Your task to perform on an android device: Search for usb-b on walmart.com, select the first entry, add it to the cart, then select checkout. Image 0: 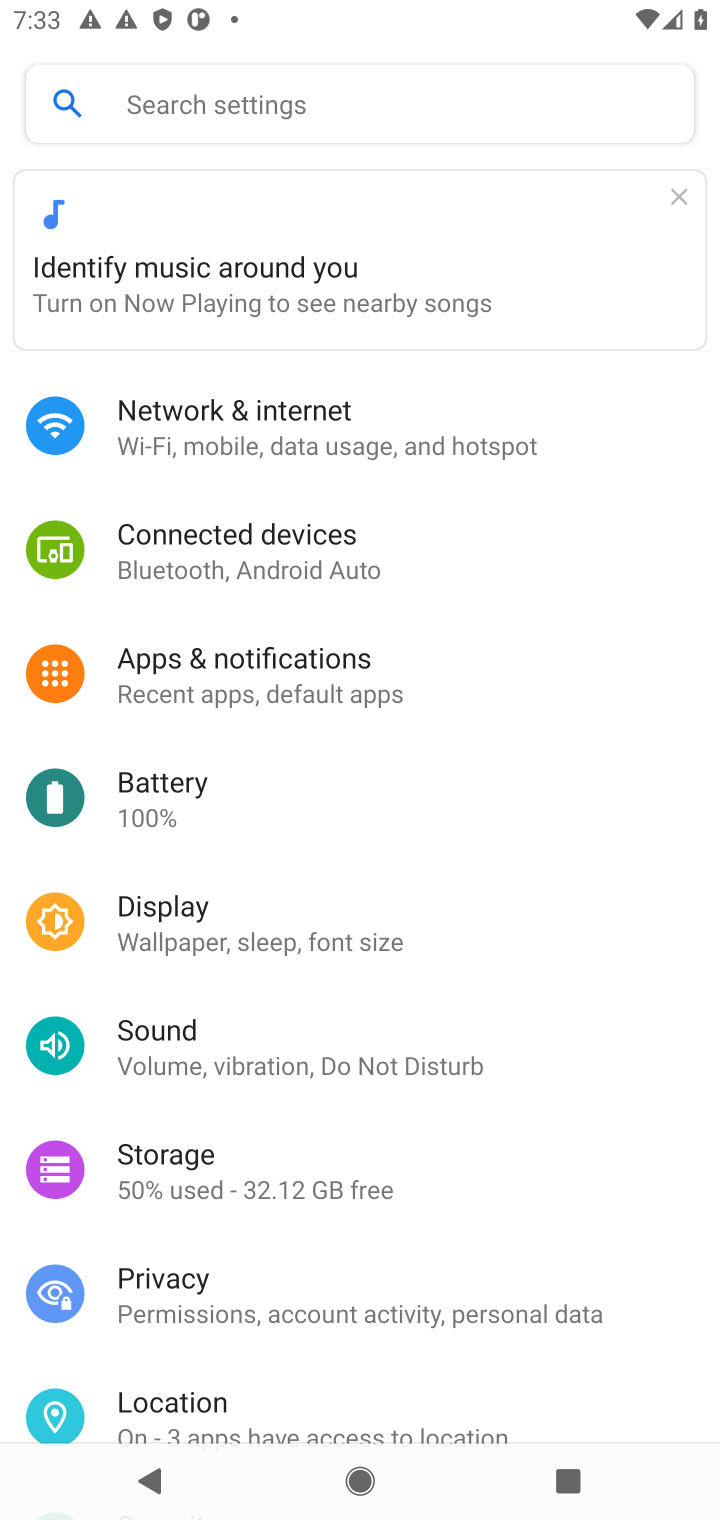
Step 0: press home button
Your task to perform on an android device: Search for usb-b on walmart.com, select the first entry, add it to the cart, then select checkout. Image 1: 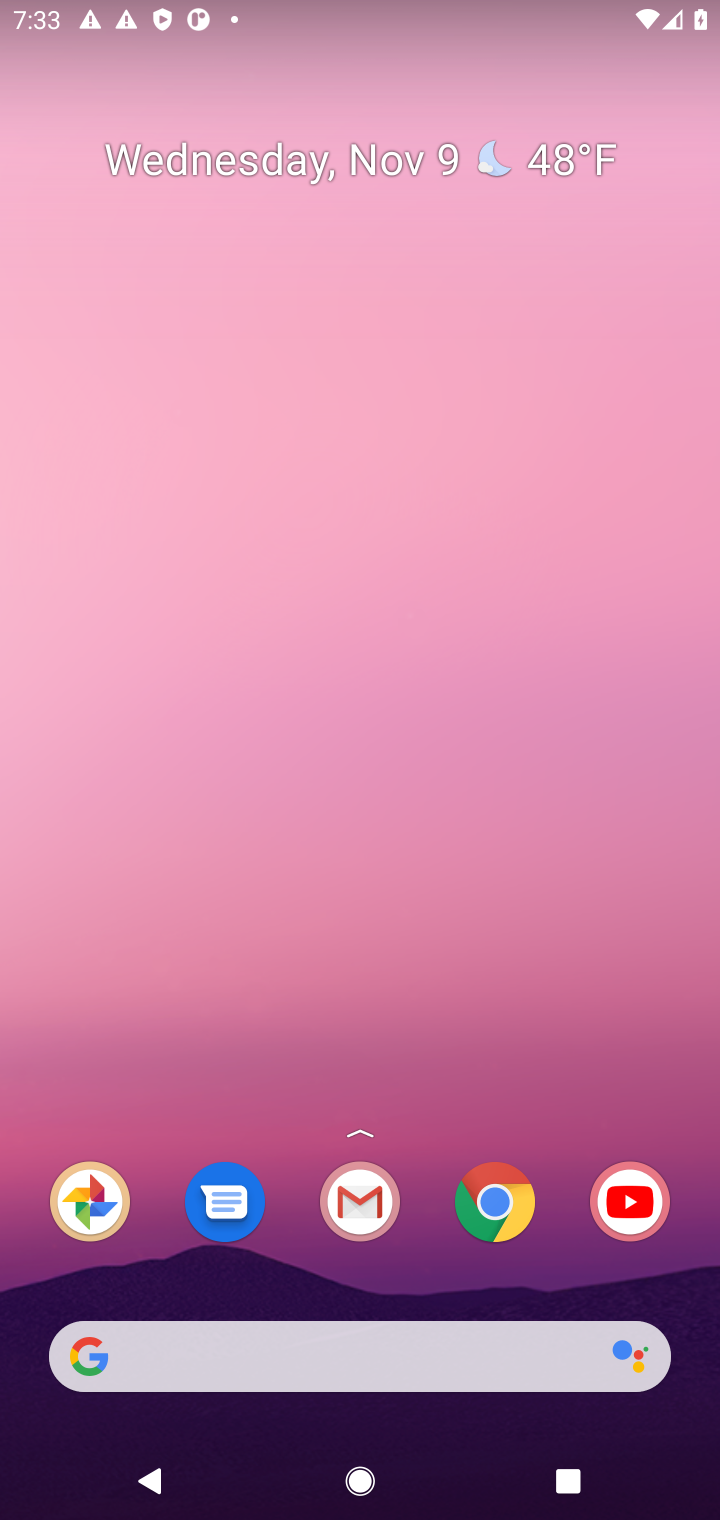
Step 1: click (507, 1204)
Your task to perform on an android device: Search for usb-b on walmart.com, select the first entry, add it to the cart, then select checkout. Image 2: 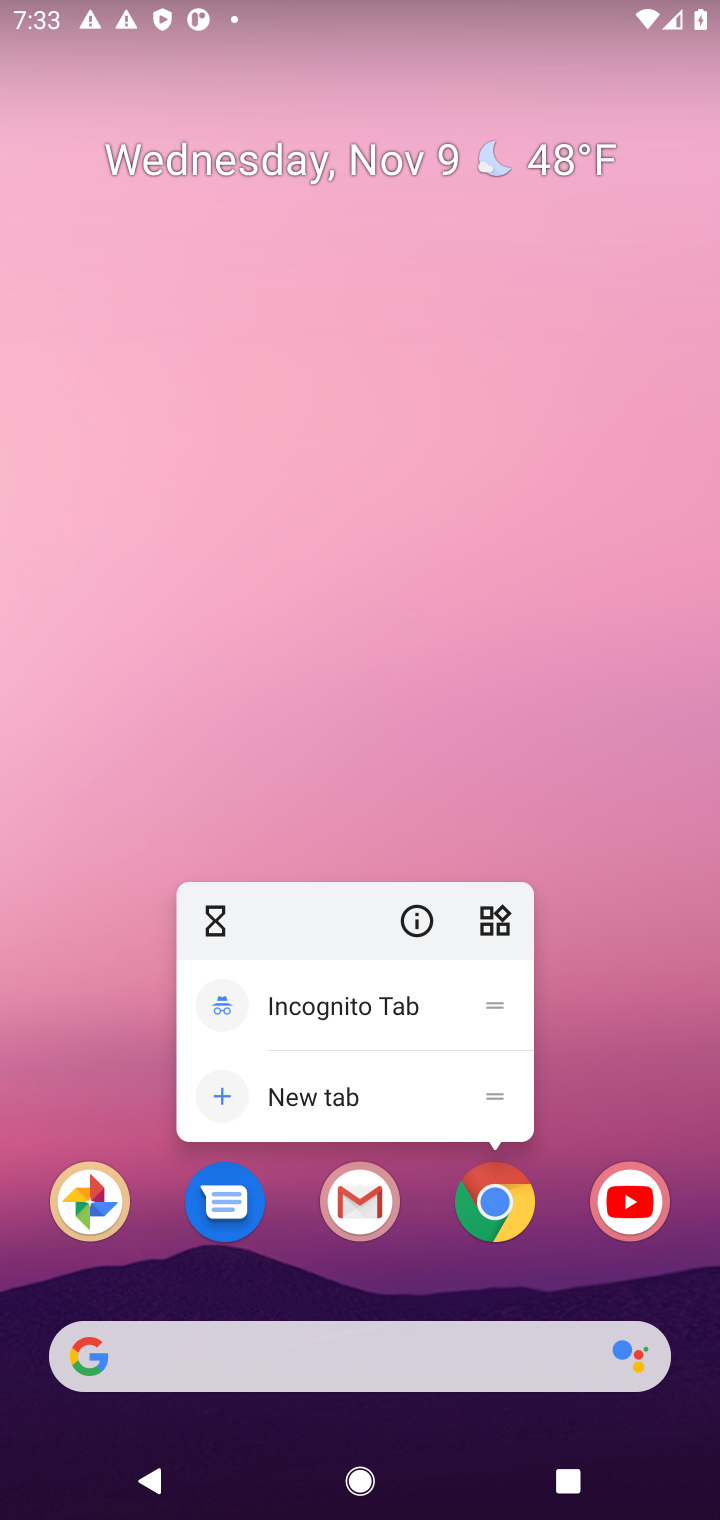
Step 2: click (482, 1208)
Your task to perform on an android device: Search for usb-b on walmart.com, select the first entry, add it to the cart, then select checkout. Image 3: 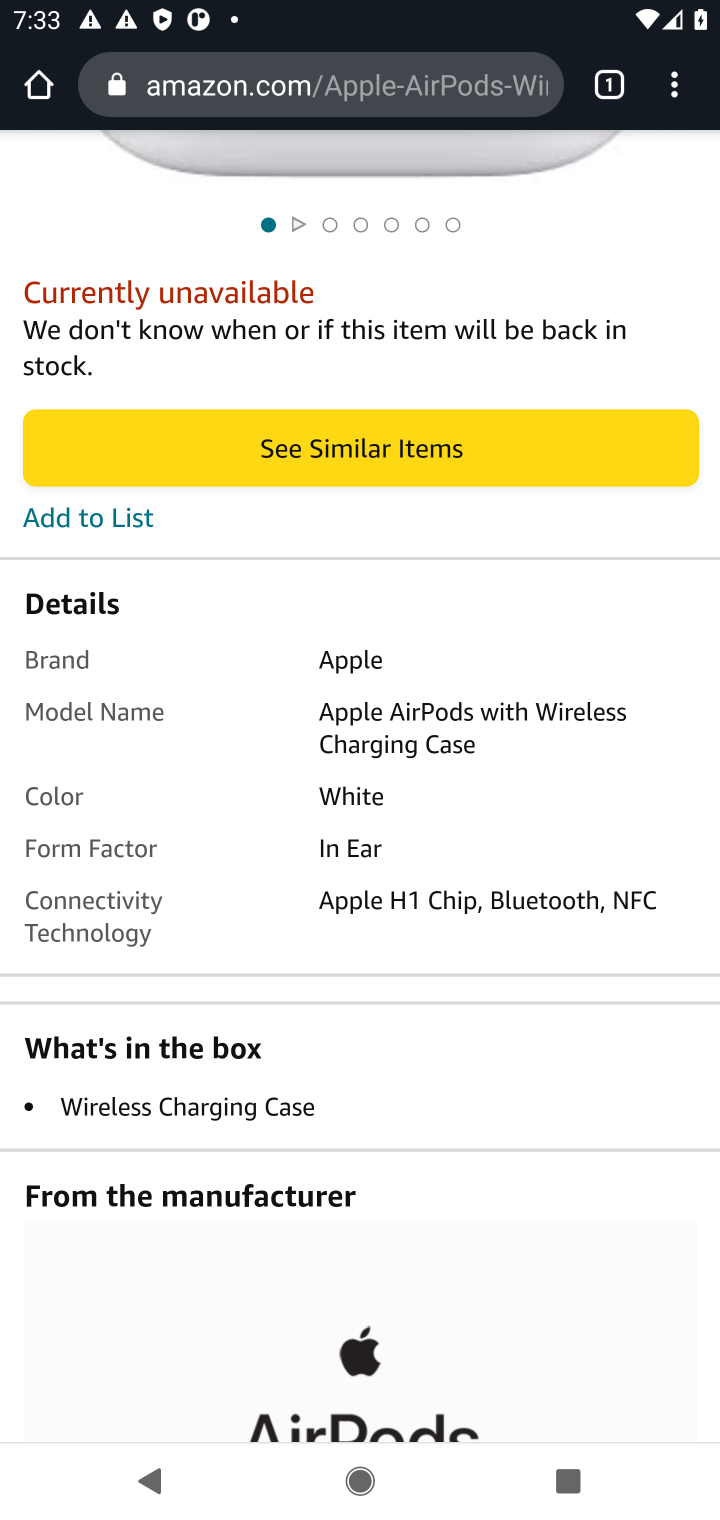
Step 3: click (379, 81)
Your task to perform on an android device: Search for usb-b on walmart.com, select the first entry, add it to the cart, then select checkout. Image 4: 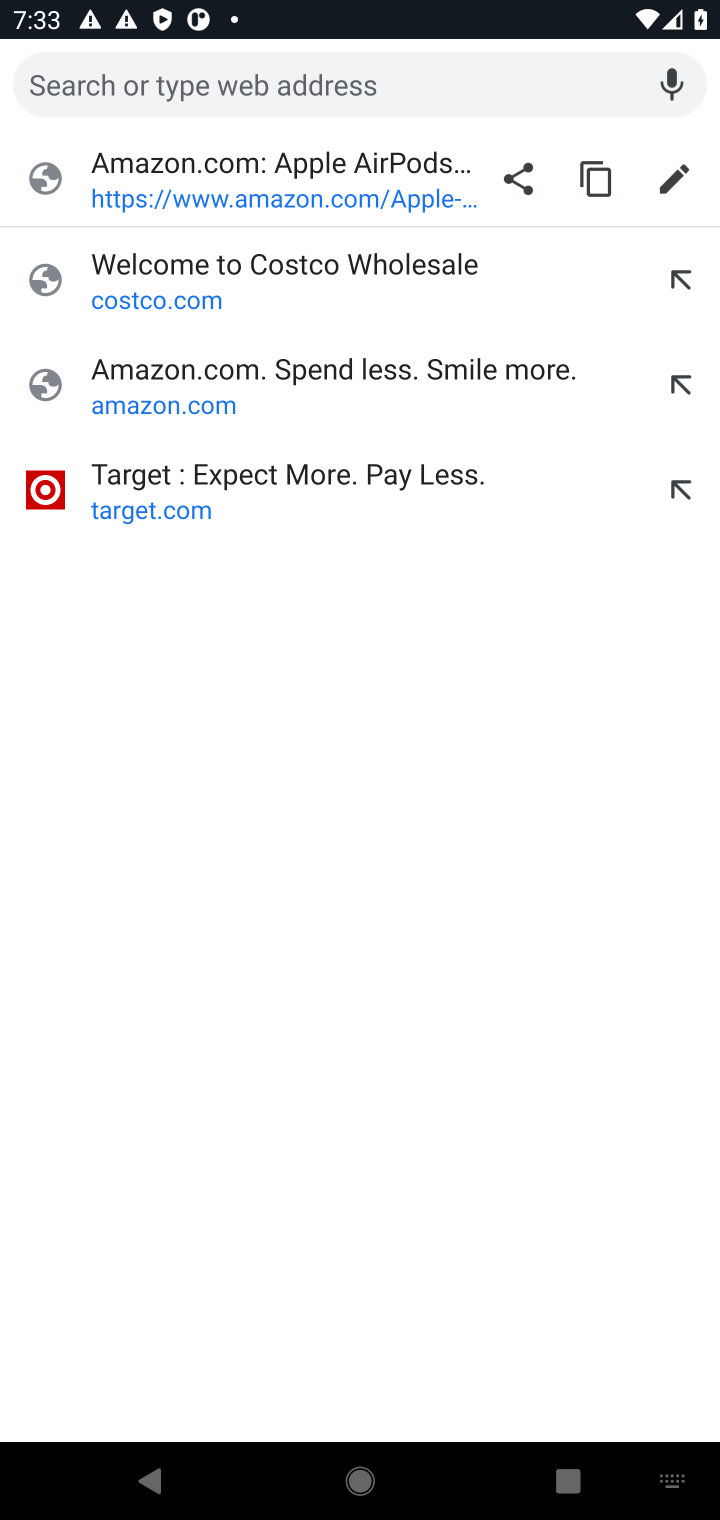
Step 4: type "walmart.com"
Your task to perform on an android device: Search for usb-b on walmart.com, select the first entry, add it to the cart, then select checkout. Image 5: 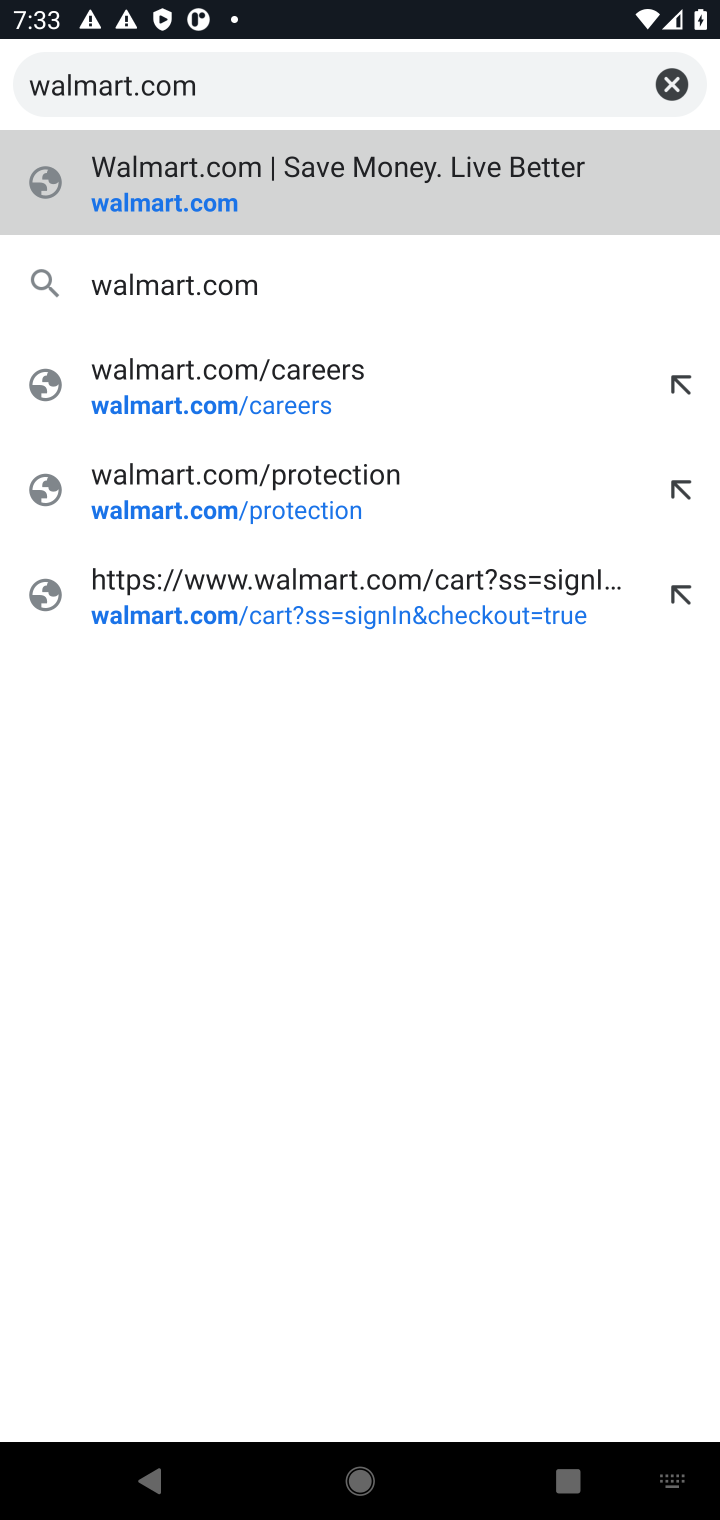
Step 5: press enter
Your task to perform on an android device: Search for usb-b on walmart.com, select the first entry, add it to the cart, then select checkout. Image 6: 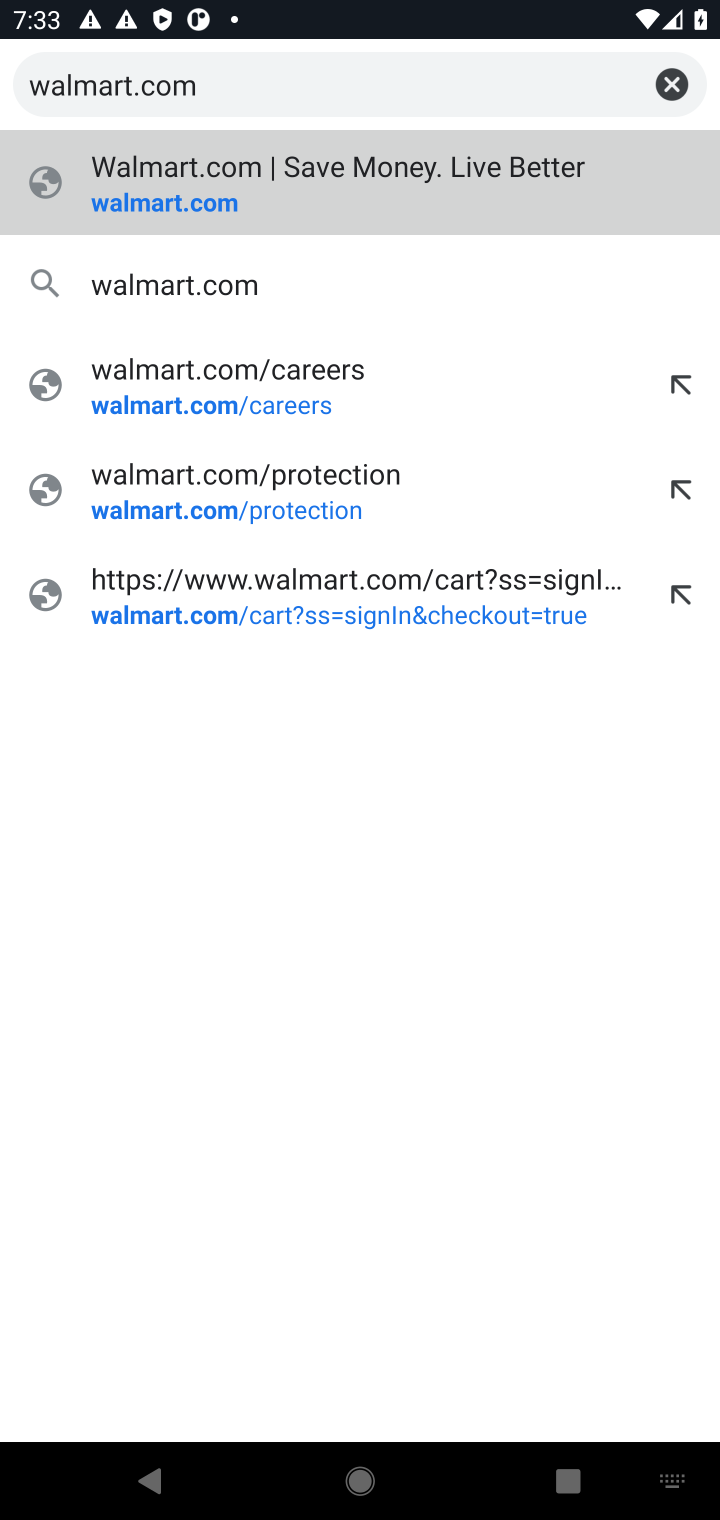
Step 6: click (52, 74)
Your task to perform on an android device: Search for usb-b on walmart.com, select the first entry, add it to the cart, then select checkout. Image 7: 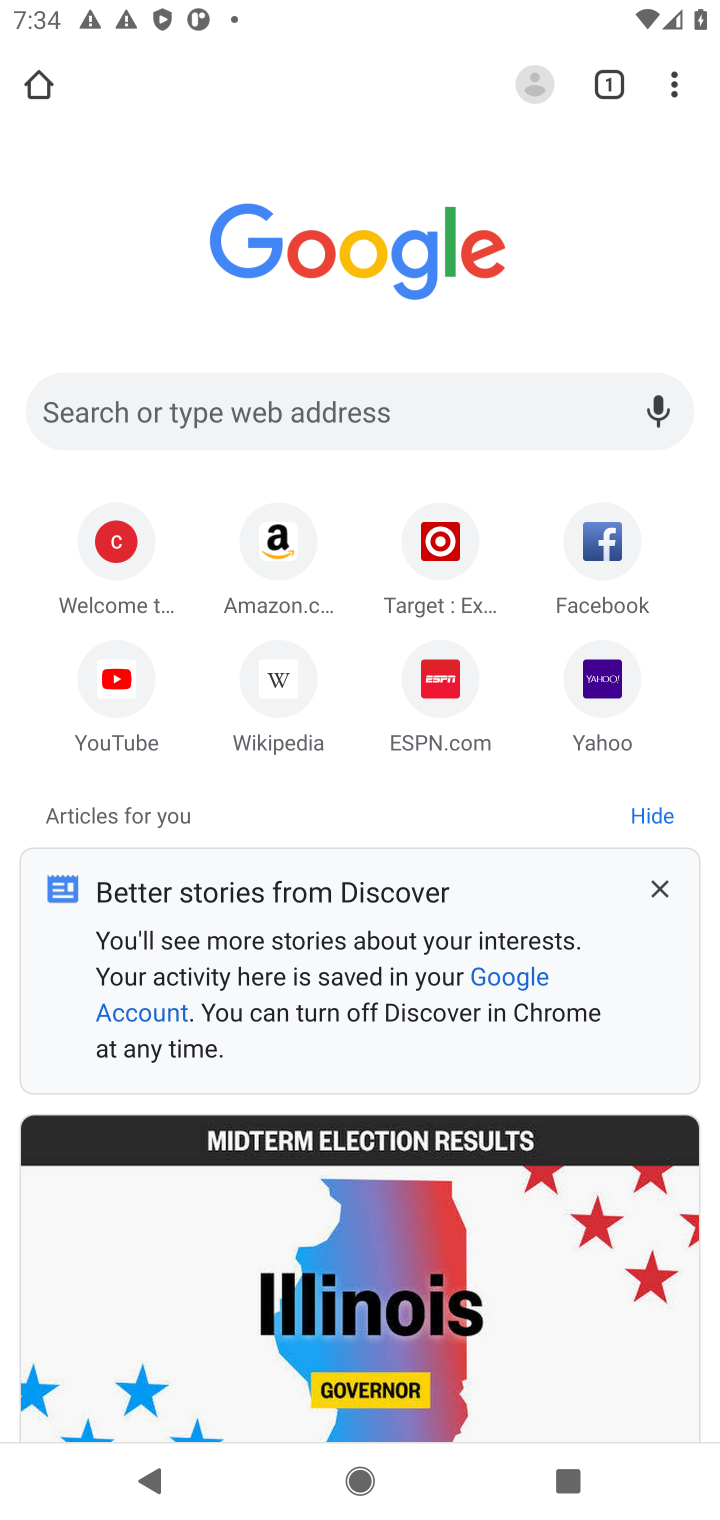
Step 7: click (191, 394)
Your task to perform on an android device: Search for usb-b on walmart.com, select the first entry, add it to the cart, then select checkout. Image 8: 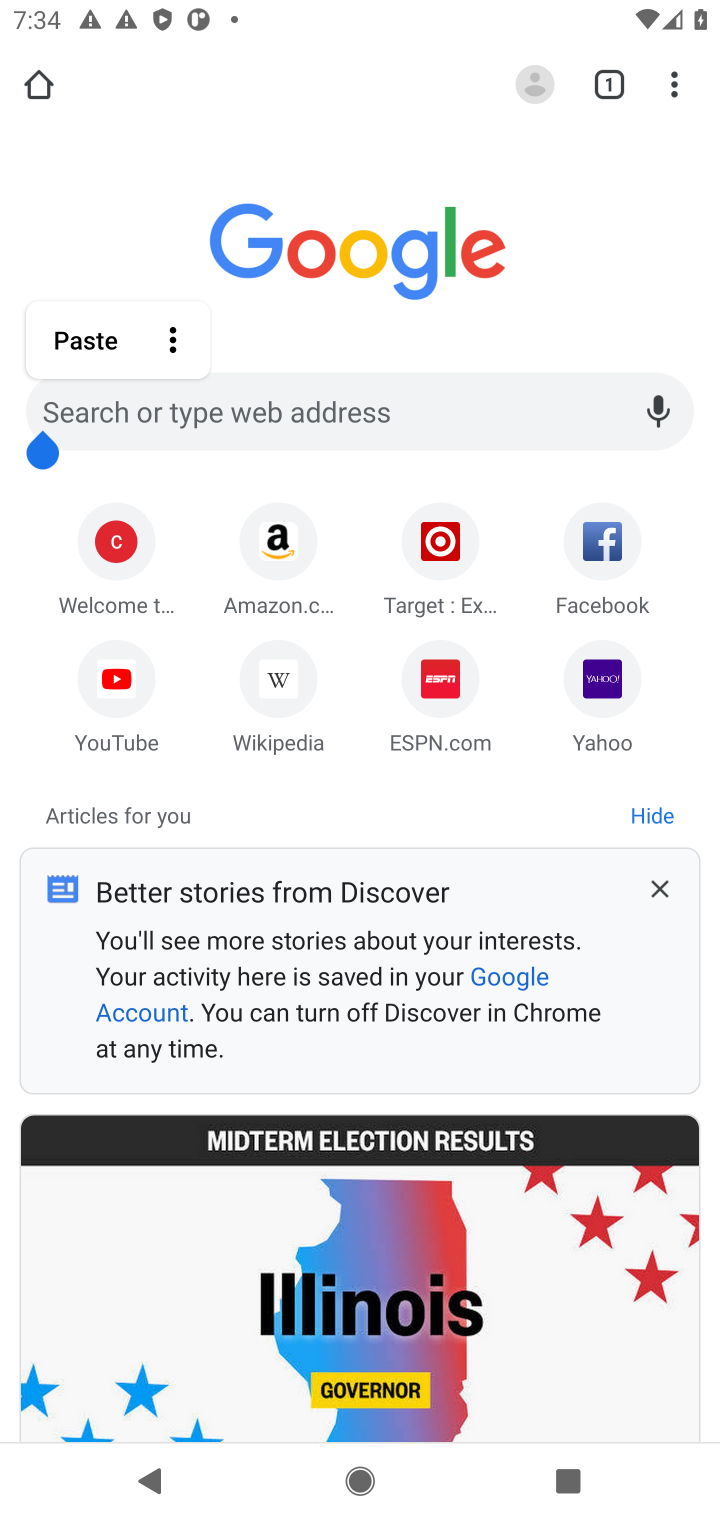
Step 8: click (166, 405)
Your task to perform on an android device: Search for usb-b on walmart.com, select the first entry, add it to the cart, then select checkout. Image 9: 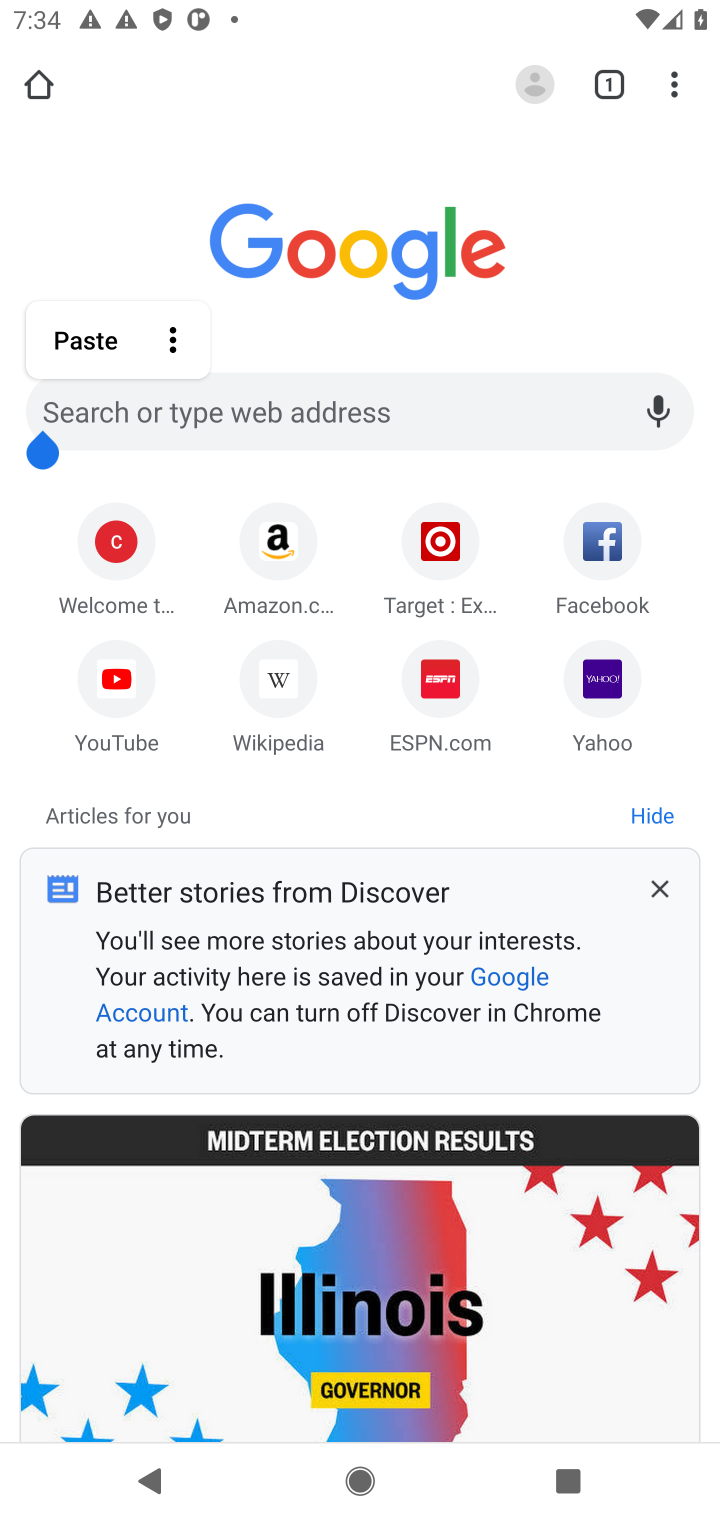
Step 9: click (168, 402)
Your task to perform on an android device: Search for usb-b on walmart.com, select the first entry, add it to the cart, then select checkout. Image 10: 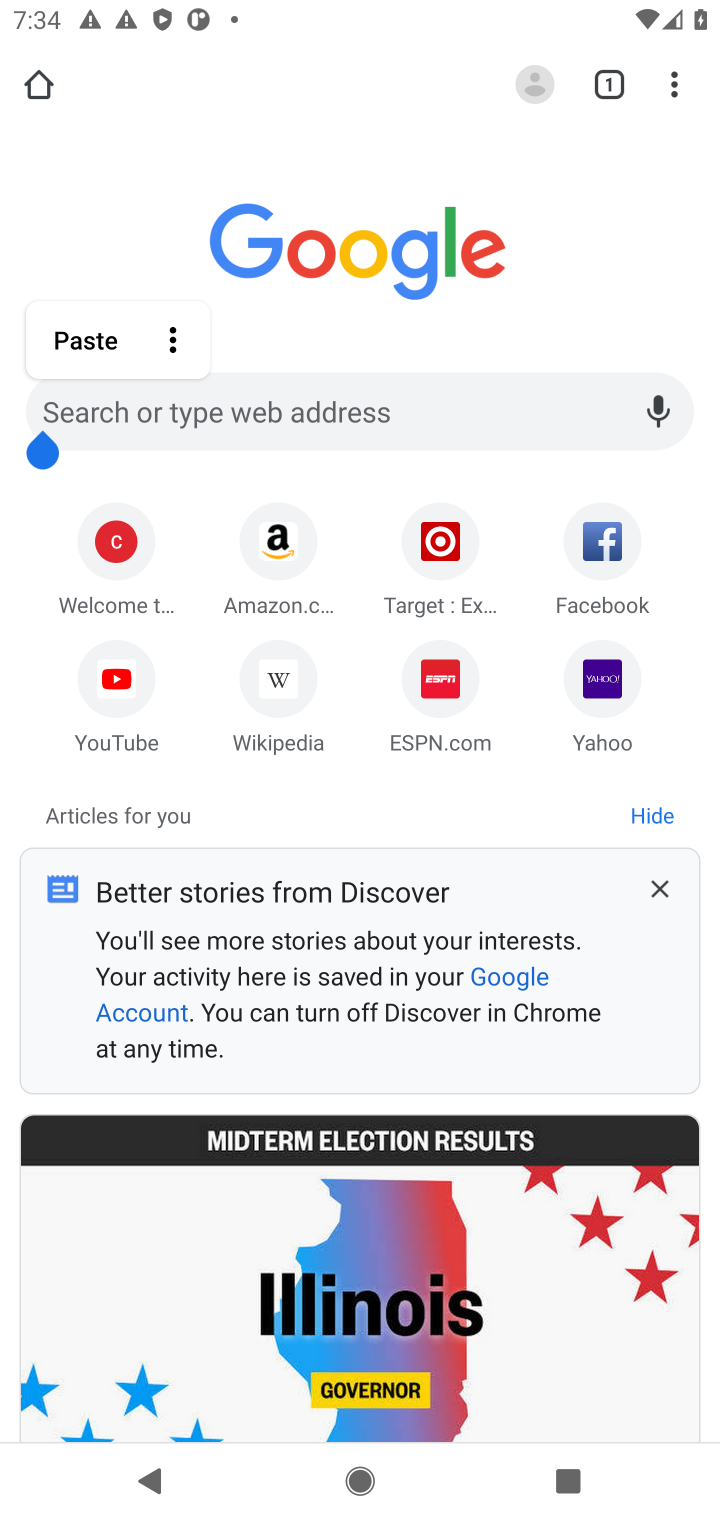
Step 10: click (97, 402)
Your task to perform on an android device: Search for usb-b on walmart.com, select the first entry, add it to the cart, then select checkout. Image 11: 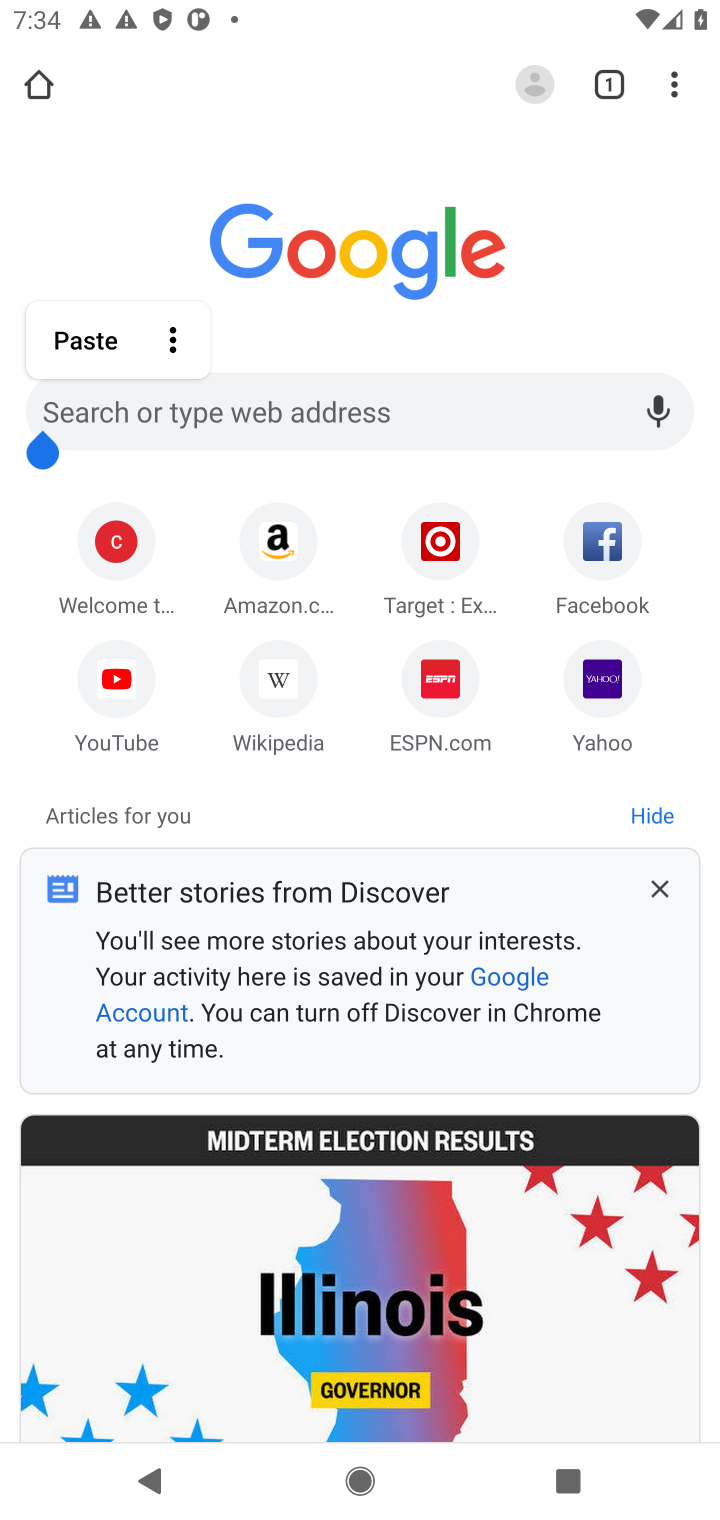
Step 11: click (101, 402)
Your task to perform on an android device: Search for usb-b on walmart.com, select the first entry, add it to the cart, then select checkout. Image 12: 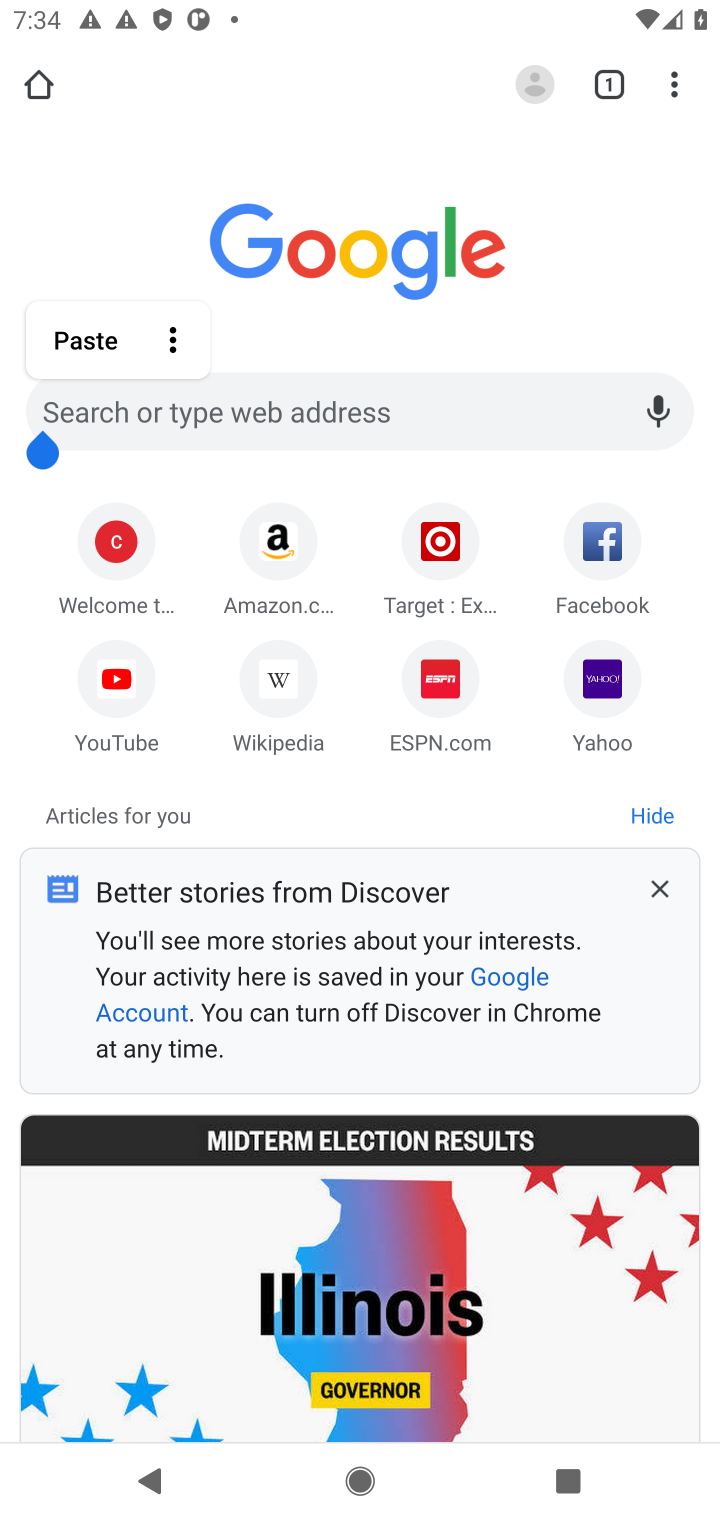
Step 12: click (230, 409)
Your task to perform on an android device: Search for usb-b on walmart.com, select the first entry, add it to the cart, then select checkout. Image 13: 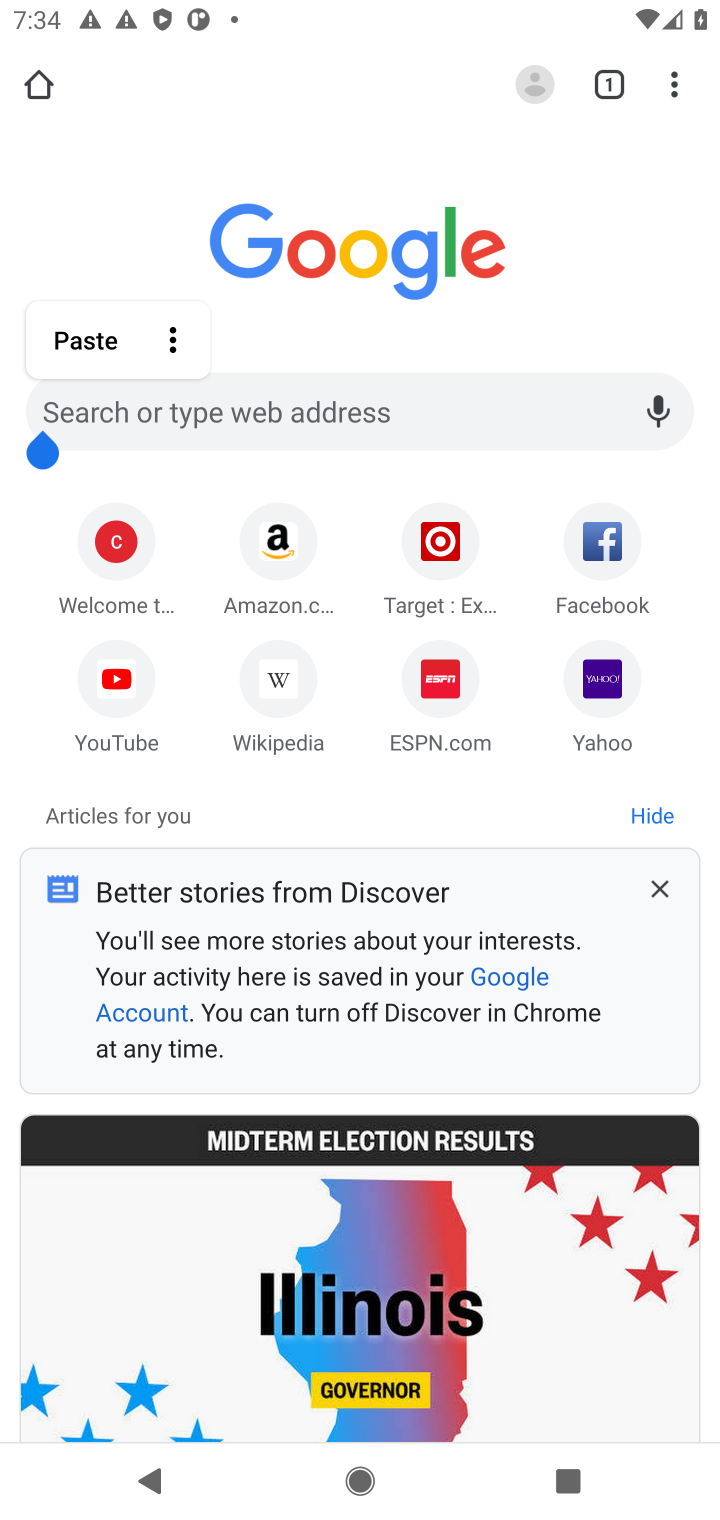
Step 13: click (284, 410)
Your task to perform on an android device: Search for usb-b on walmart.com, select the first entry, add it to the cart, then select checkout. Image 14: 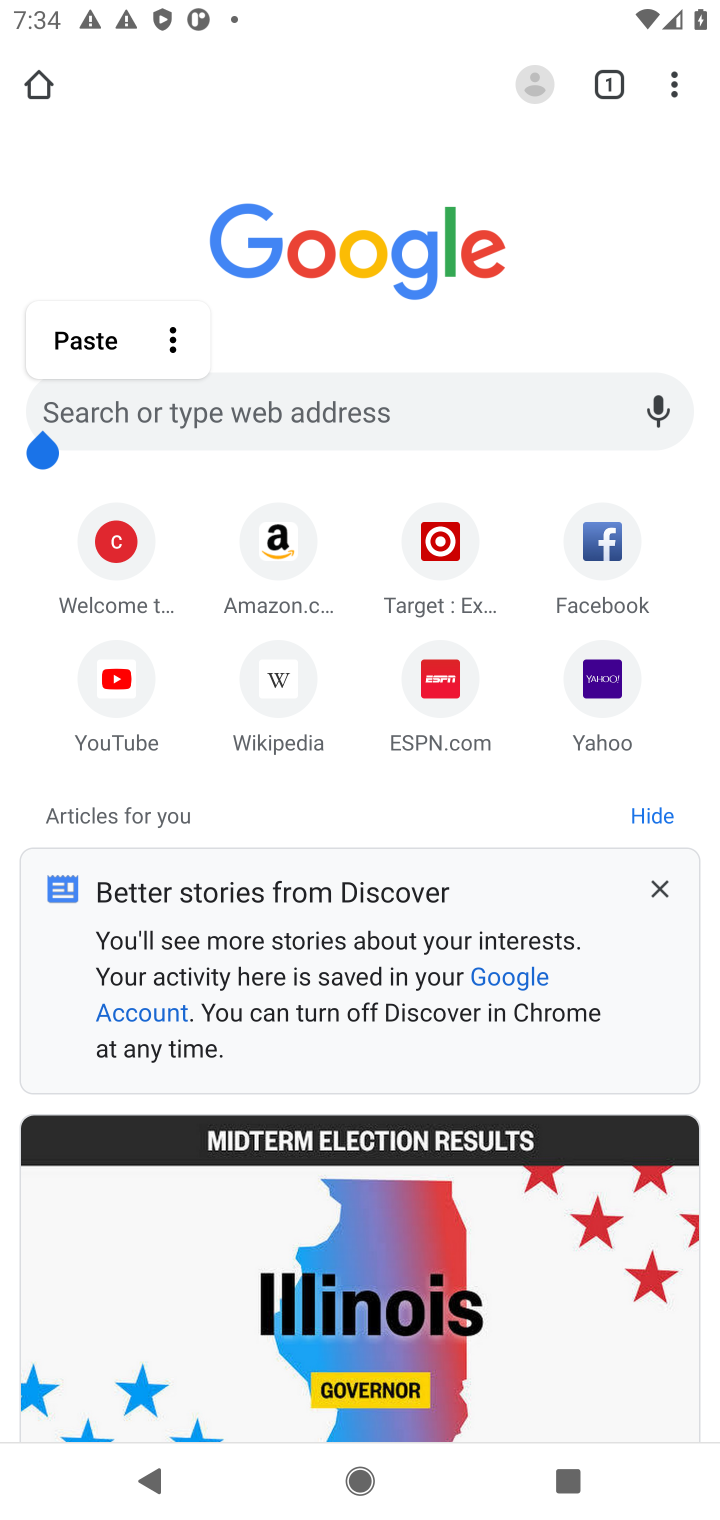
Step 14: click (131, 398)
Your task to perform on an android device: Search for usb-b on walmart.com, select the first entry, add it to the cart, then select checkout. Image 15: 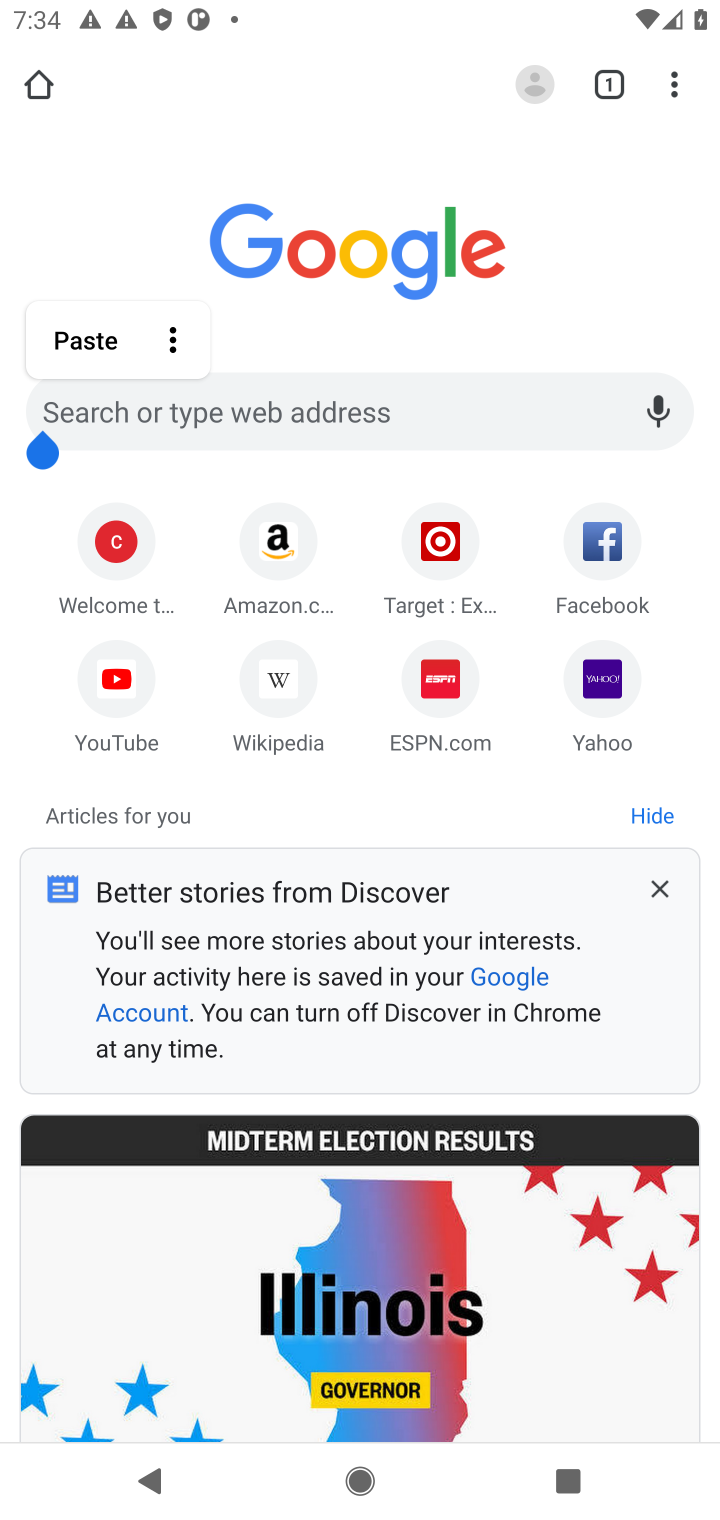
Step 15: click (66, 400)
Your task to perform on an android device: Search for usb-b on walmart.com, select the first entry, add it to the cart, then select checkout. Image 16: 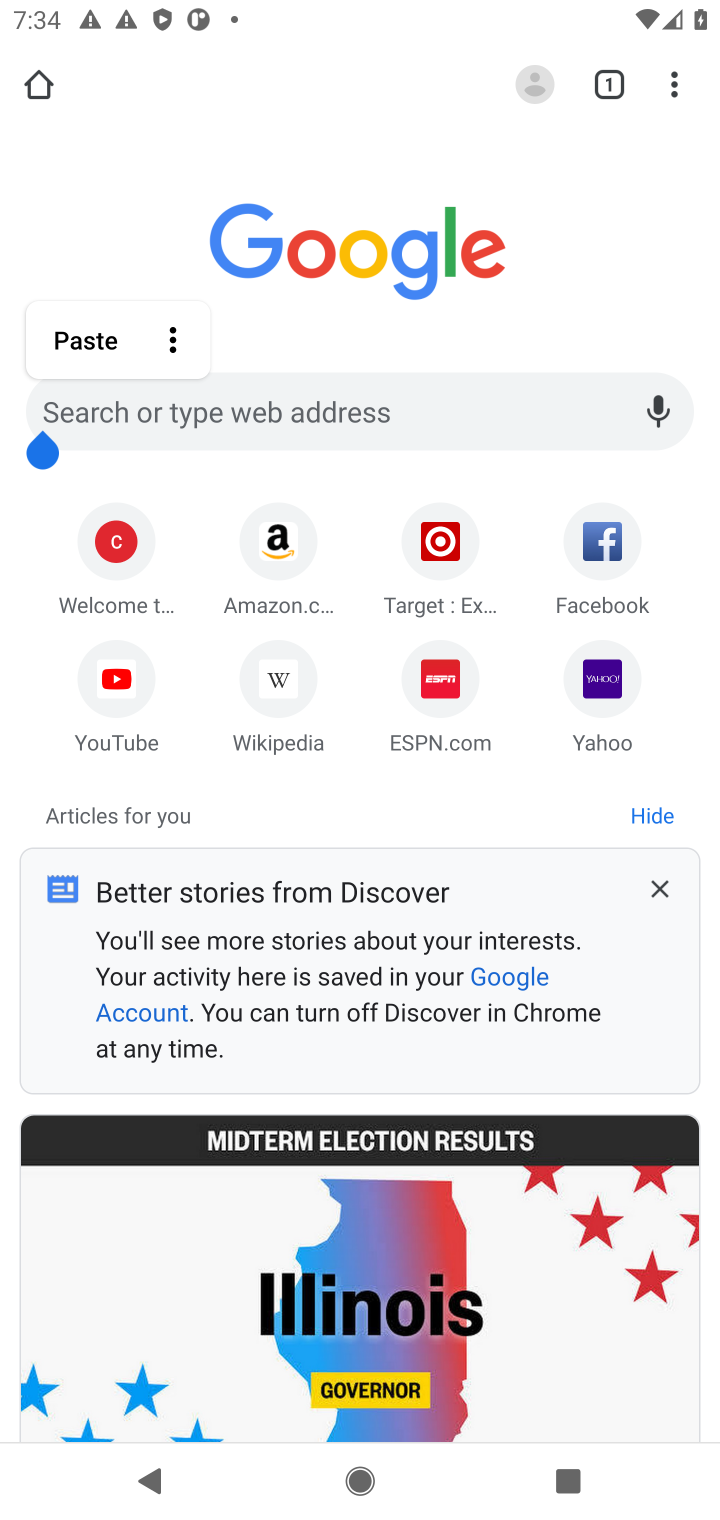
Step 16: click (164, 402)
Your task to perform on an android device: Search for usb-b on walmart.com, select the first entry, add it to the cart, then select checkout. Image 17: 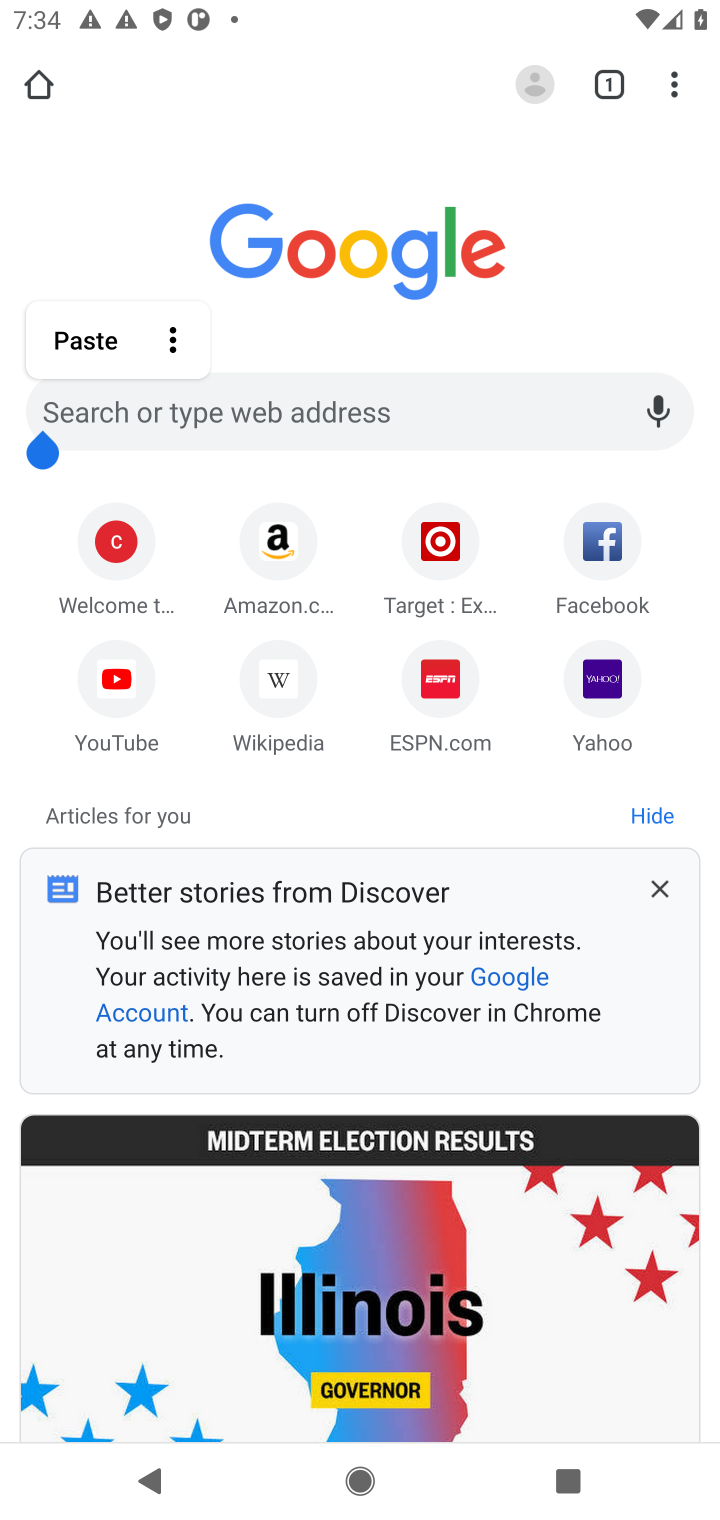
Step 17: click (451, 404)
Your task to perform on an android device: Search for usb-b on walmart.com, select the first entry, add it to the cart, then select checkout. Image 18: 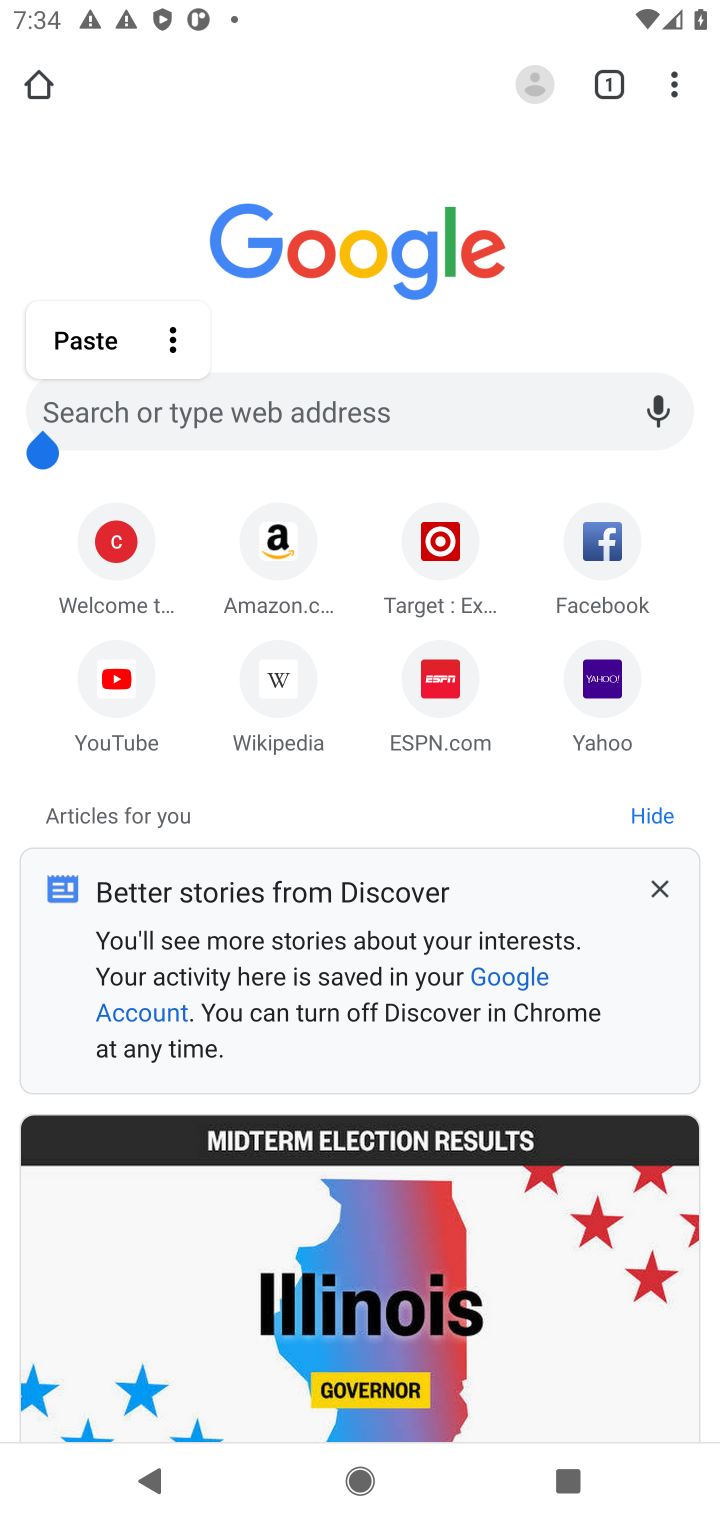
Step 18: press home button
Your task to perform on an android device: Search for usb-b on walmart.com, select the first entry, add it to the cart, then select checkout. Image 19: 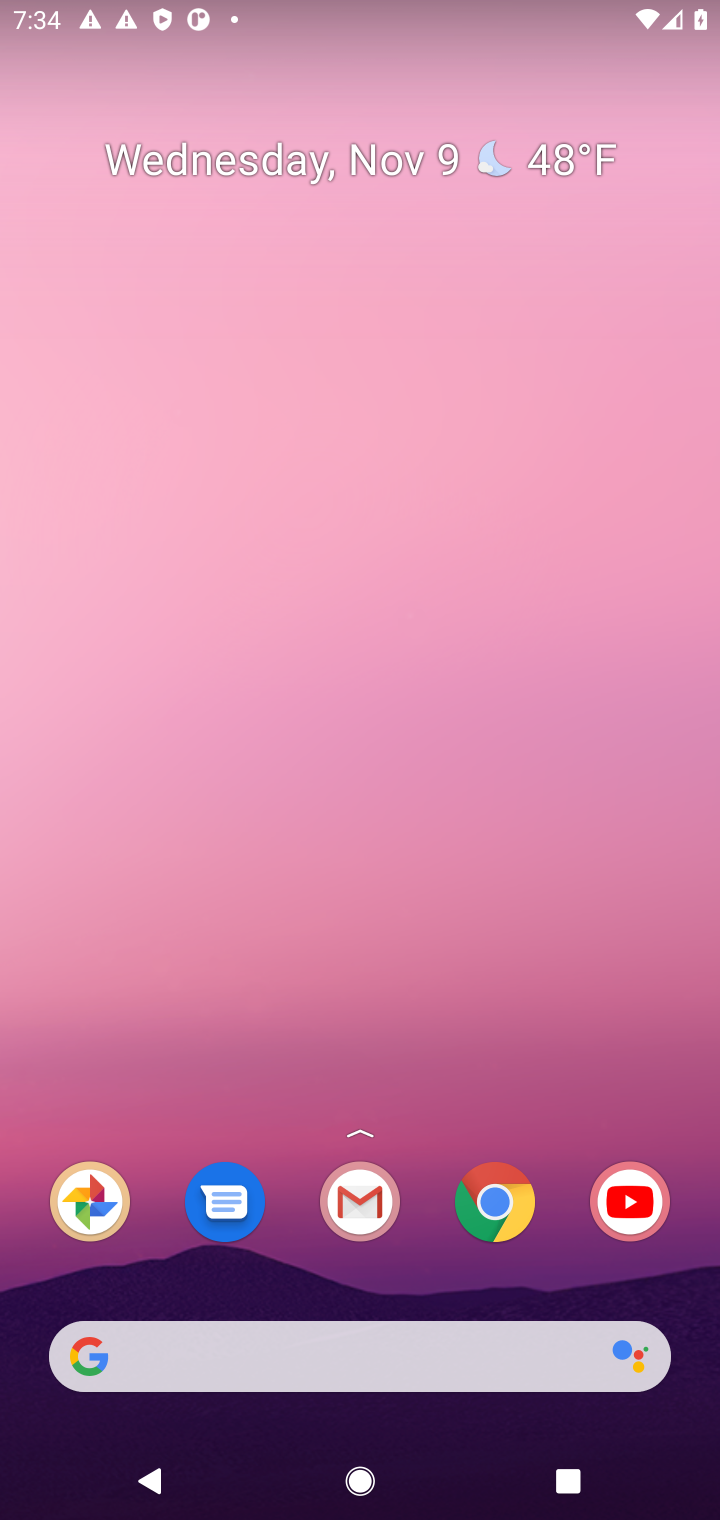
Step 19: click (232, 1350)
Your task to perform on an android device: Search for usb-b on walmart.com, select the first entry, add it to the cart, then select checkout. Image 20: 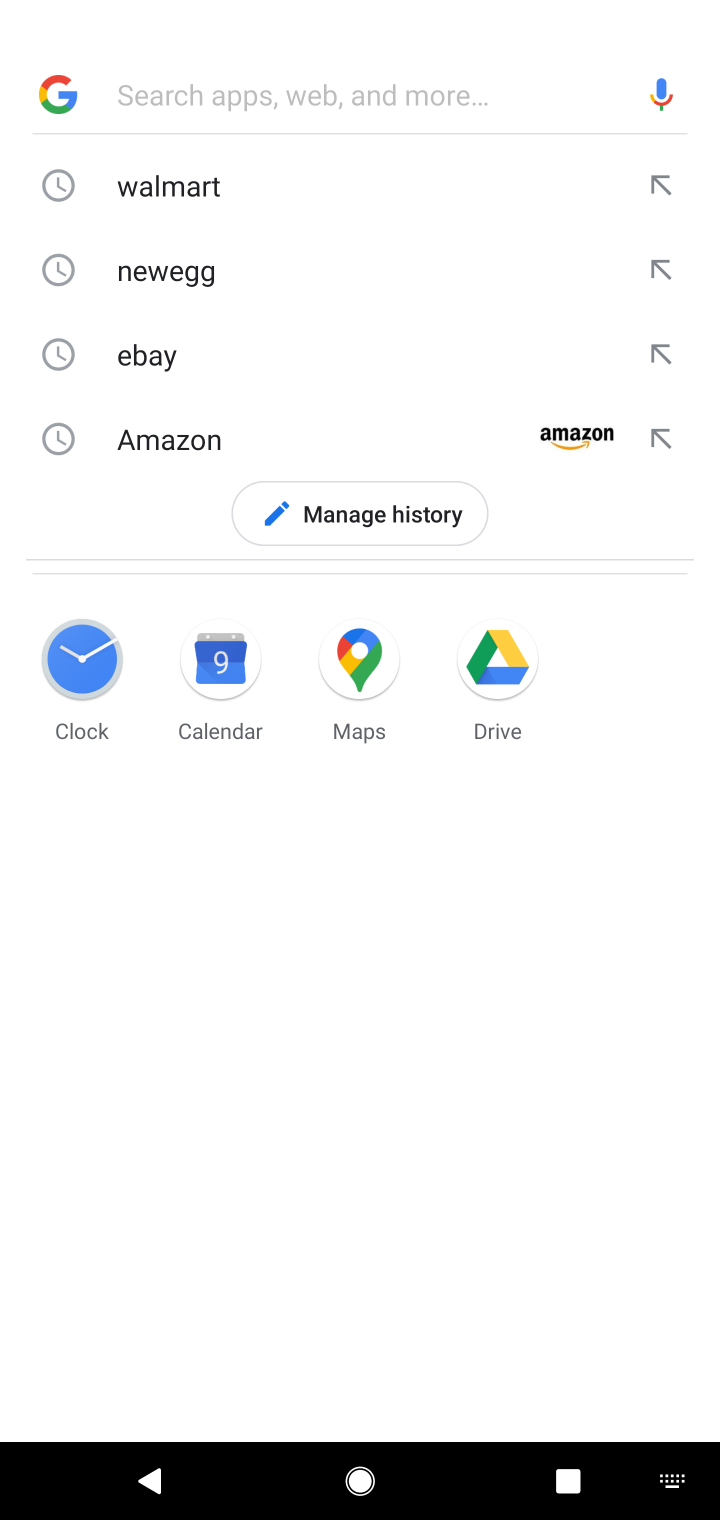
Step 20: type "walmart.com"
Your task to perform on an android device: Search for usb-b on walmart.com, select the first entry, add it to the cart, then select checkout. Image 21: 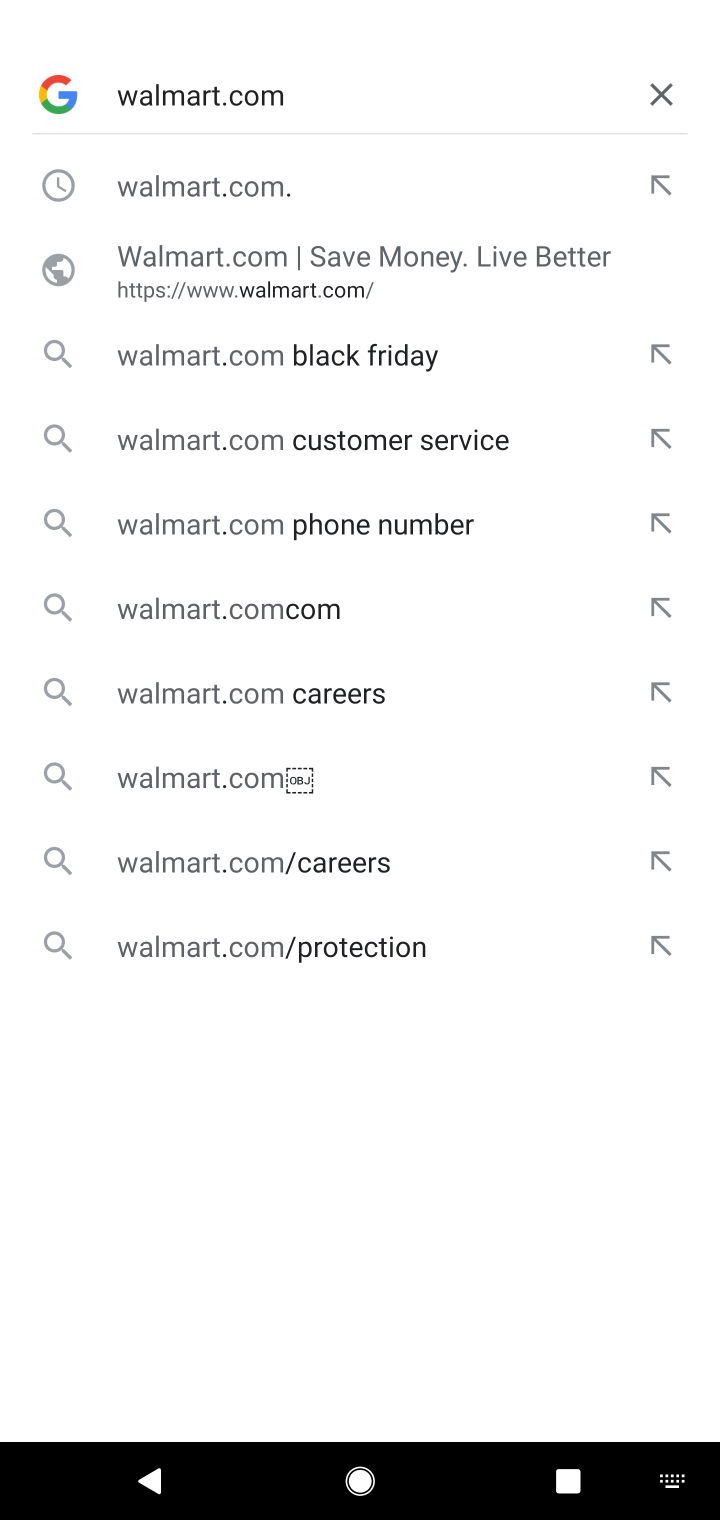
Step 21: press enter
Your task to perform on an android device: Search for usb-b on walmart.com, select the first entry, add it to the cart, then select checkout. Image 22: 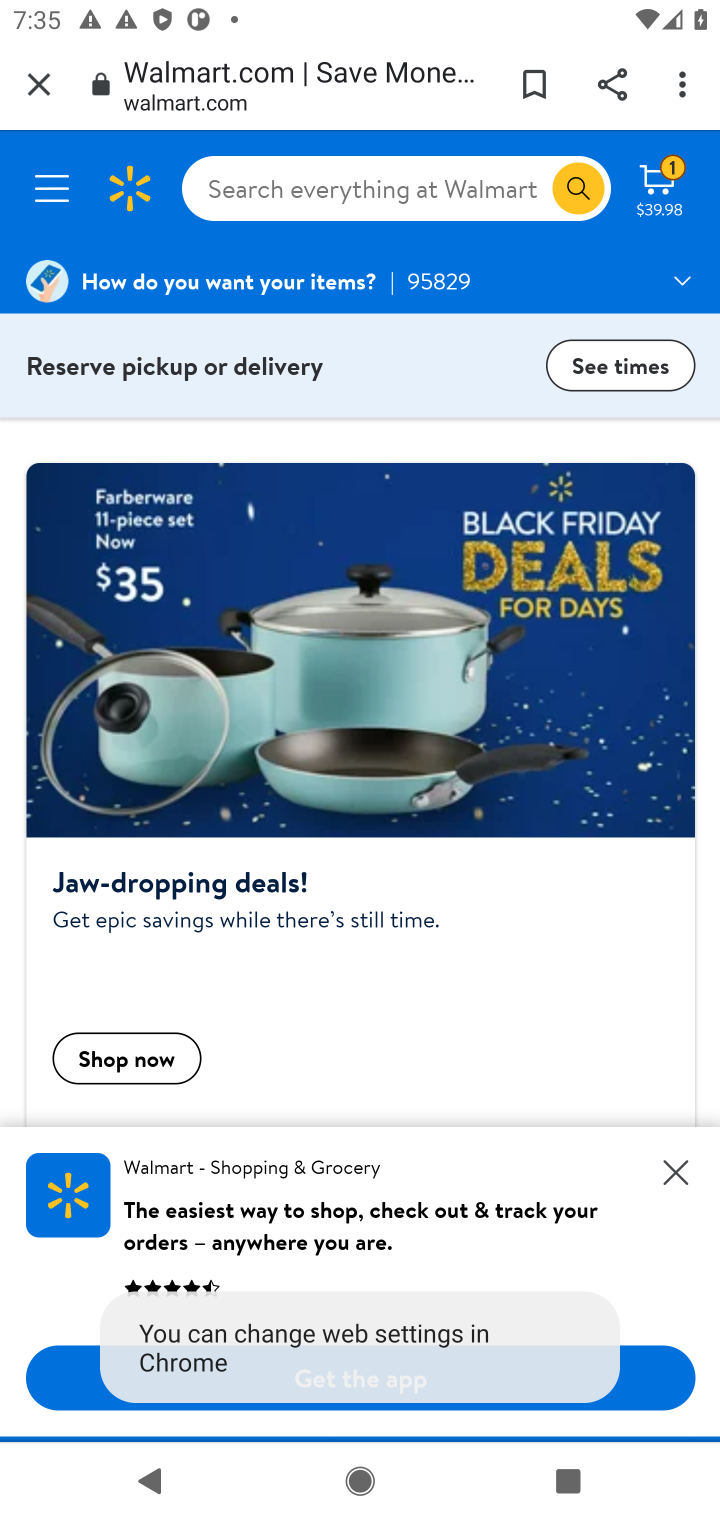
Step 22: click (358, 203)
Your task to perform on an android device: Search for usb-b on walmart.com, select the first entry, add it to the cart, then select checkout. Image 23: 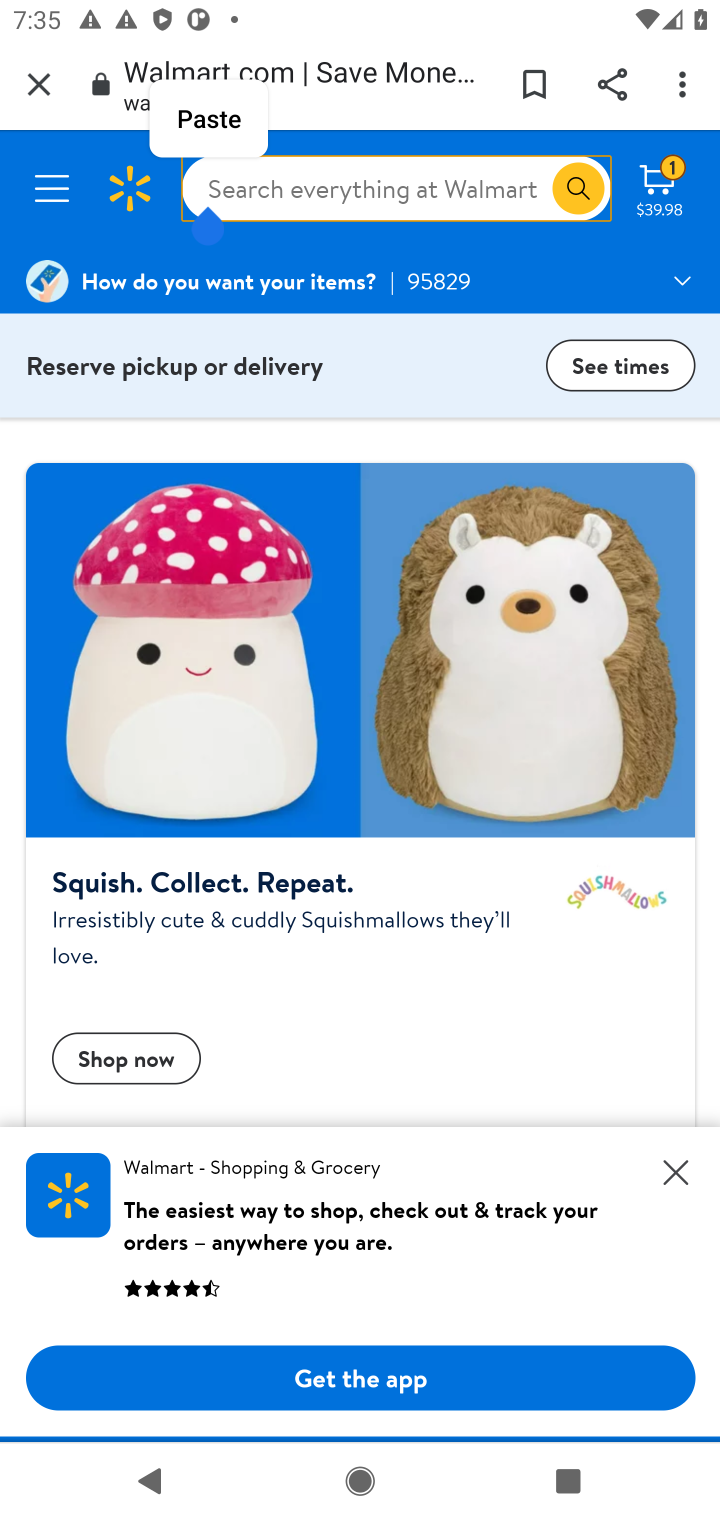
Step 23: type "usb-b "
Your task to perform on an android device: Search for usb-b on walmart.com, select the first entry, add it to the cart, then select checkout. Image 24: 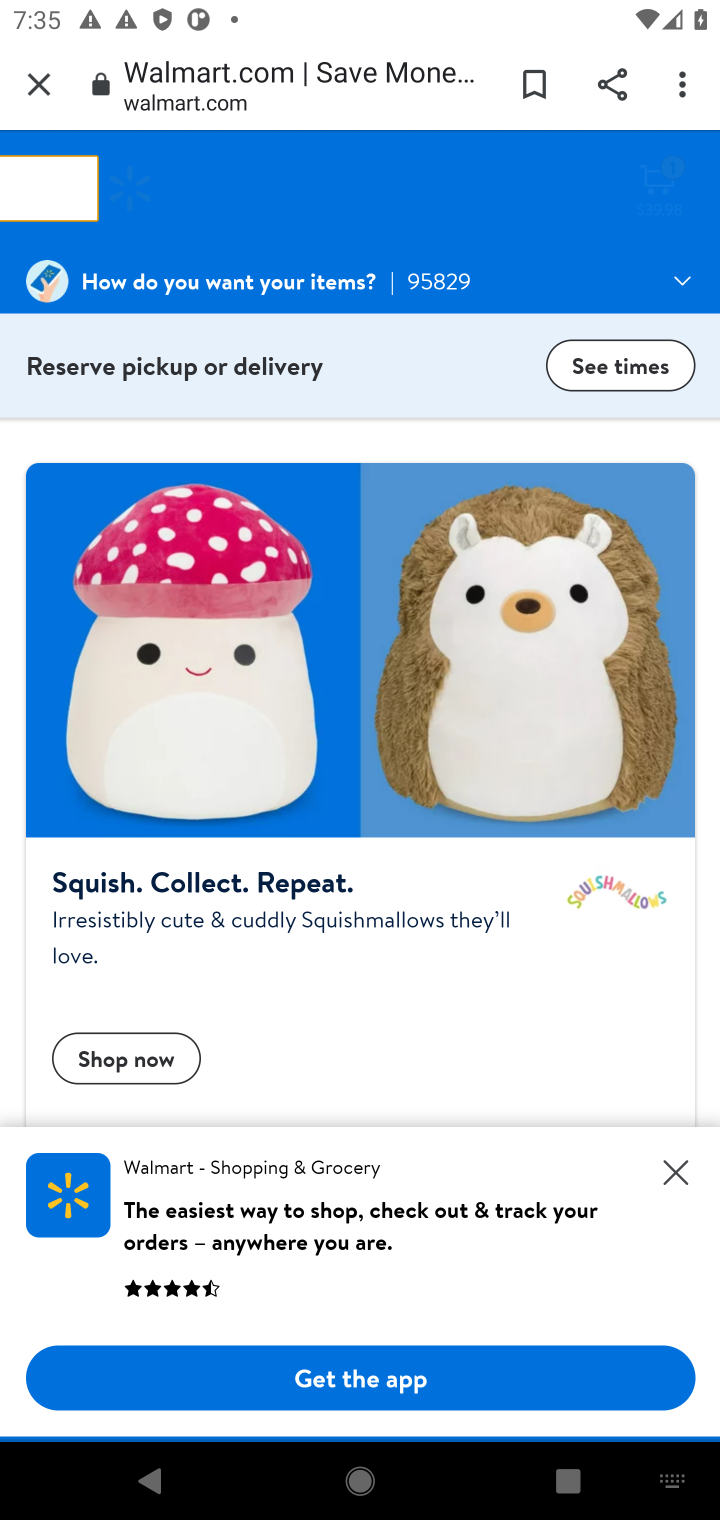
Step 24: press enter
Your task to perform on an android device: Search for usb-b on walmart.com, select the first entry, add it to the cart, then select checkout. Image 25: 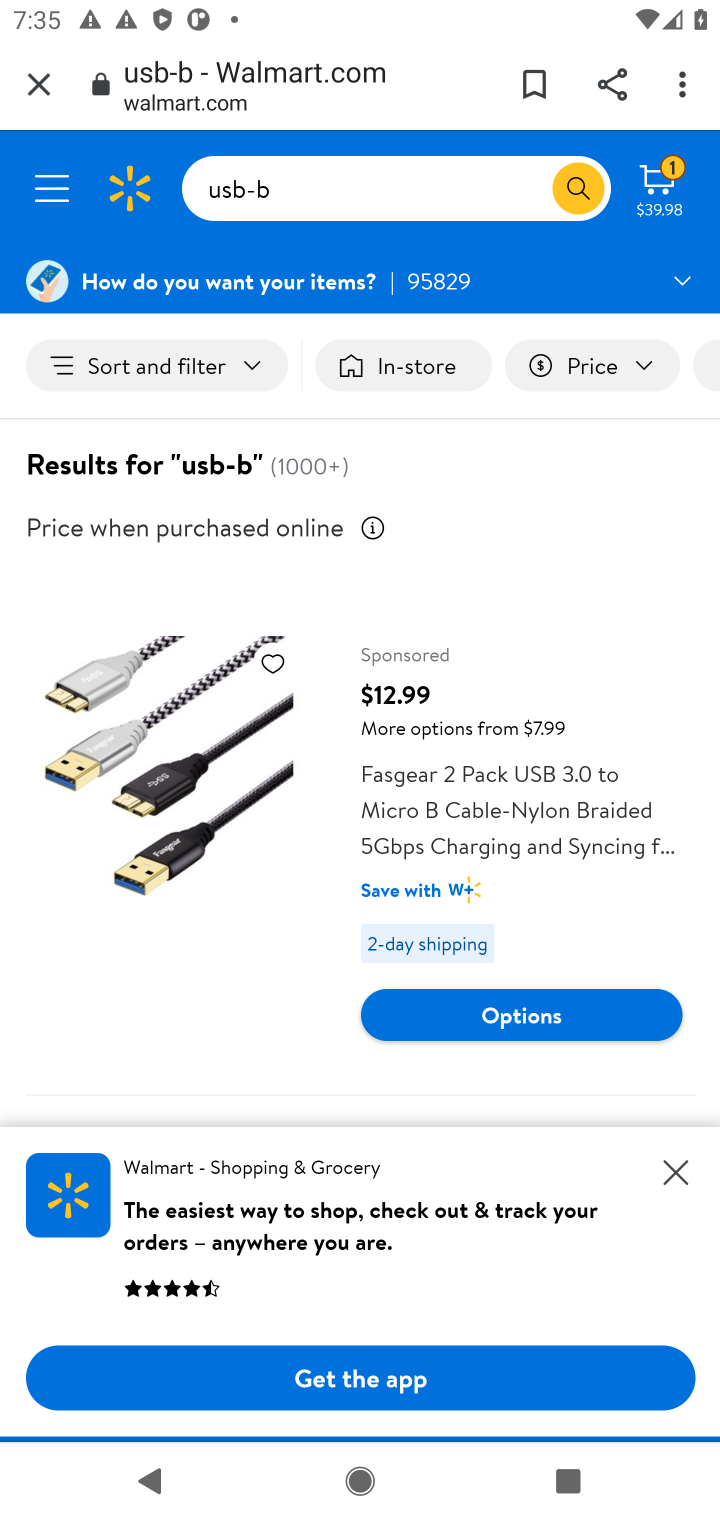
Step 25: click (500, 813)
Your task to perform on an android device: Search for usb-b on walmart.com, select the first entry, add it to the cart, then select checkout. Image 26: 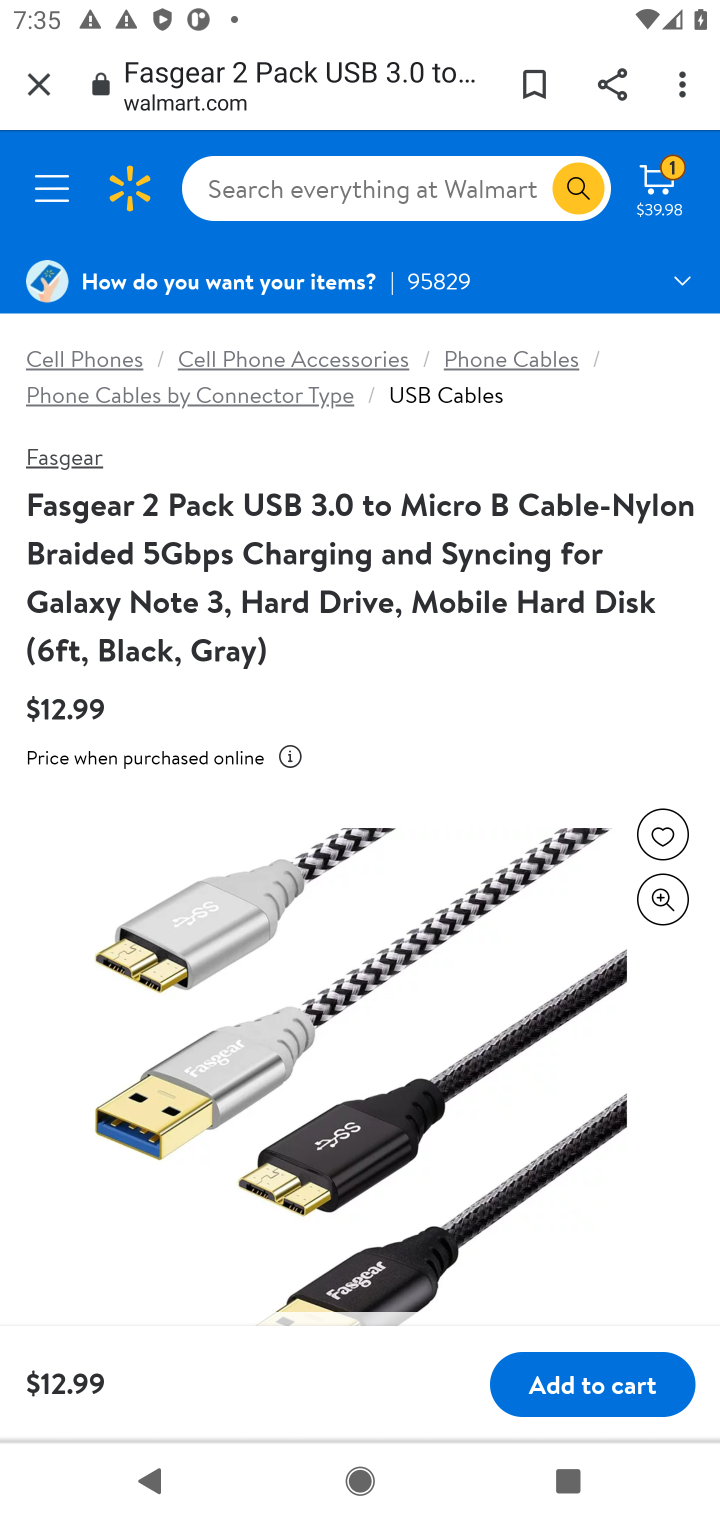
Step 26: drag from (210, 1014) to (452, 583)
Your task to perform on an android device: Search for usb-b on walmart.com, select the first entry, add it to the cart, then select checkout. Image 27: 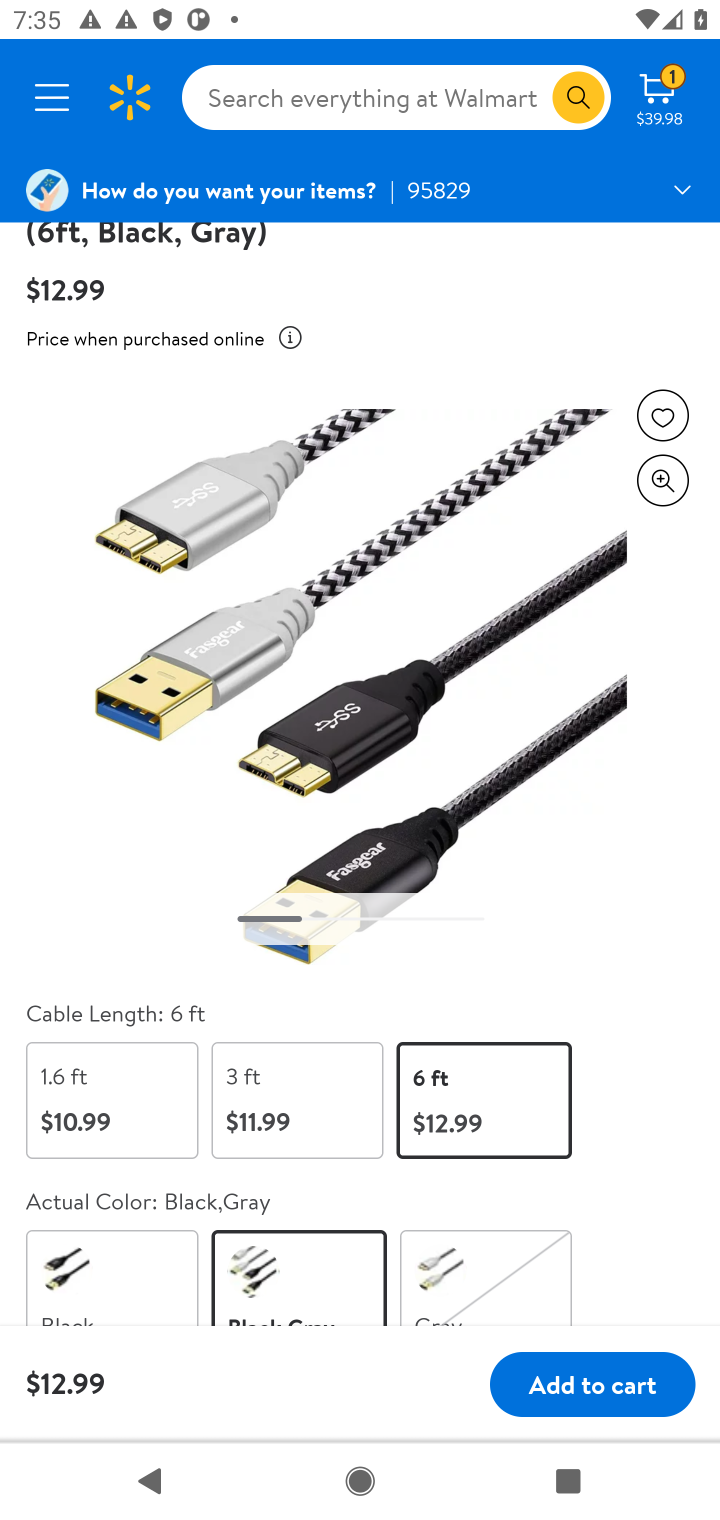
Step 27: click (617, 1390)
Your task to perform on an android device: Search for usb-b on walmart.com, select the first entry, add it to the cart, then select checkout. Image 28: 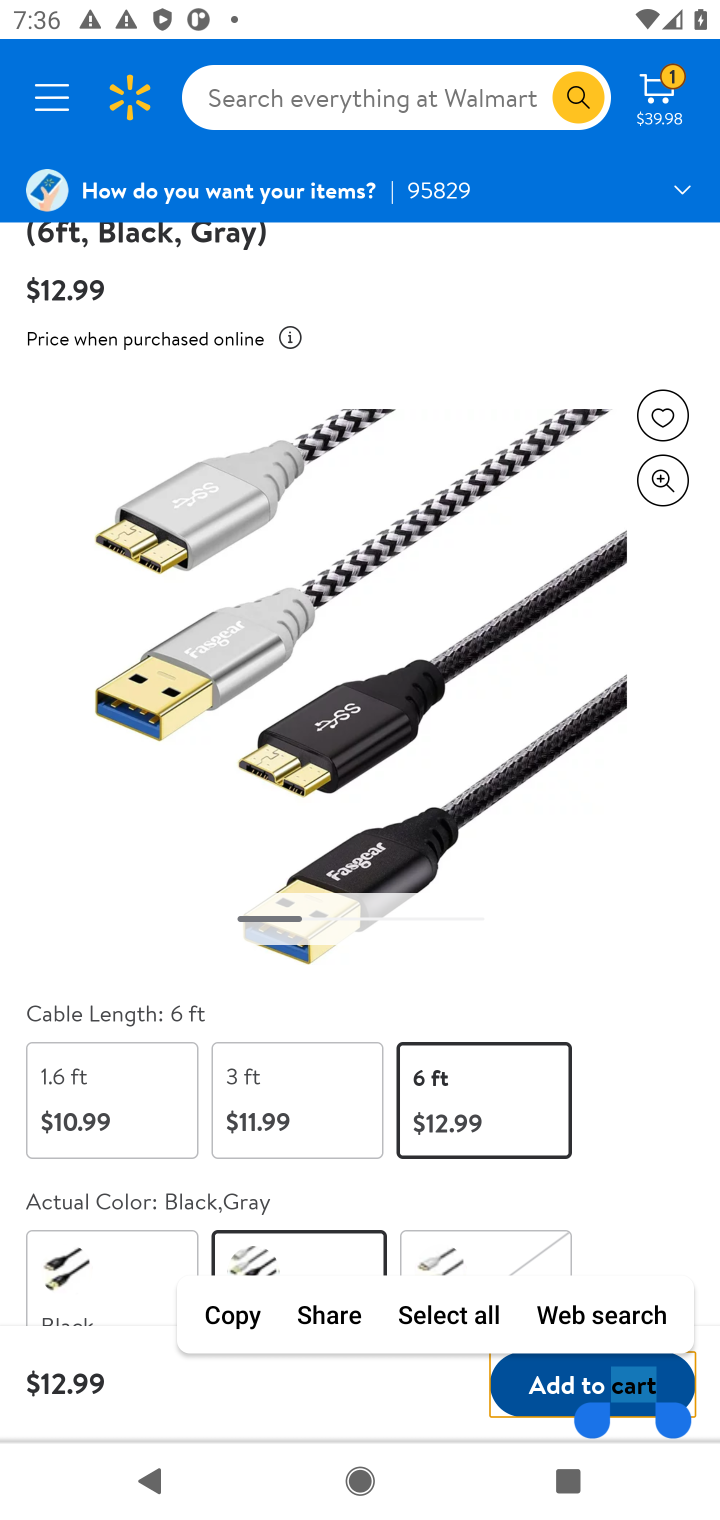
Step 28: click (560, 1379)
Your task to perform on an android device: Search for usb-b on walmart.com, select the first entry, add it to the cart, then select checkout. Image 29: 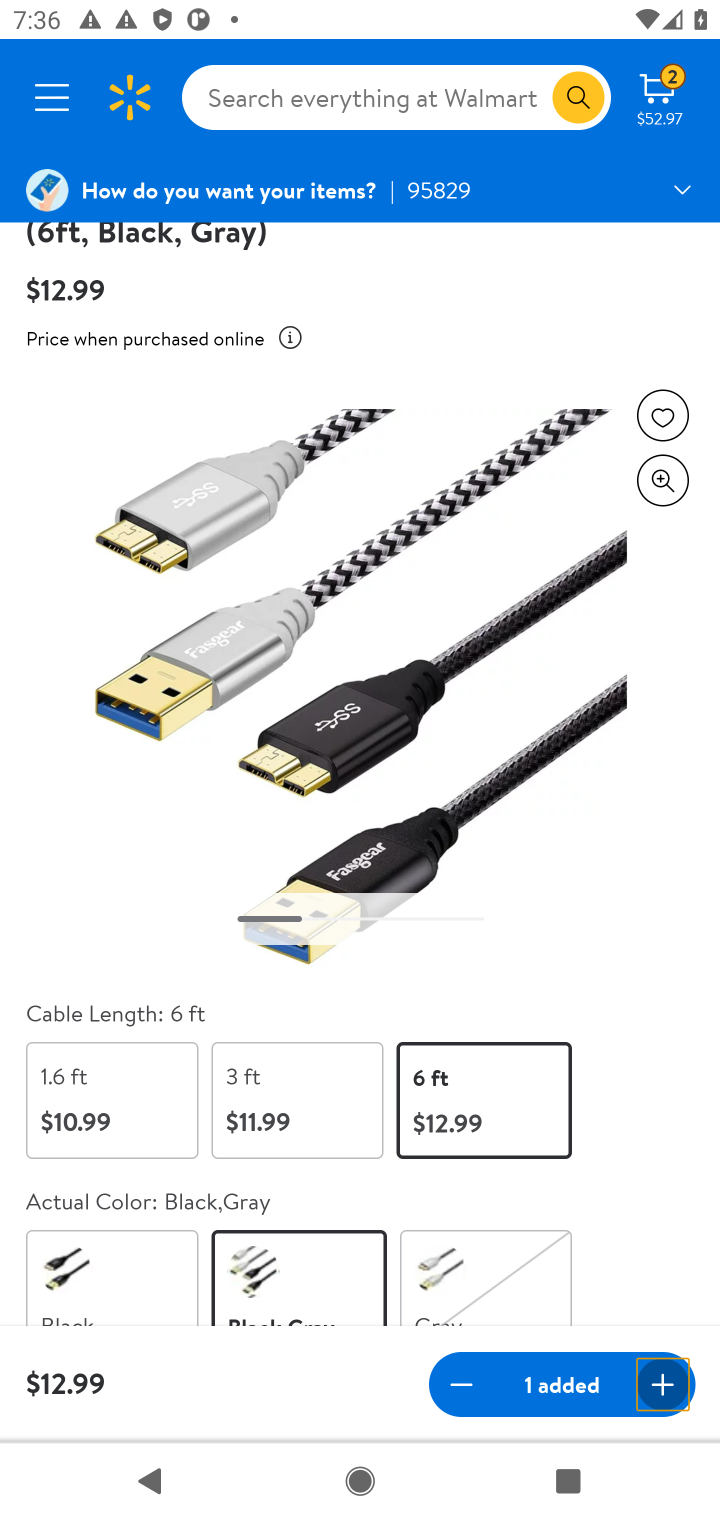
Step 29: click (660, 91)
Your task to perform on an android device: Search for usb-b on walmart.com, select the first entry, add it to the cart, then select checkout. Image 30: 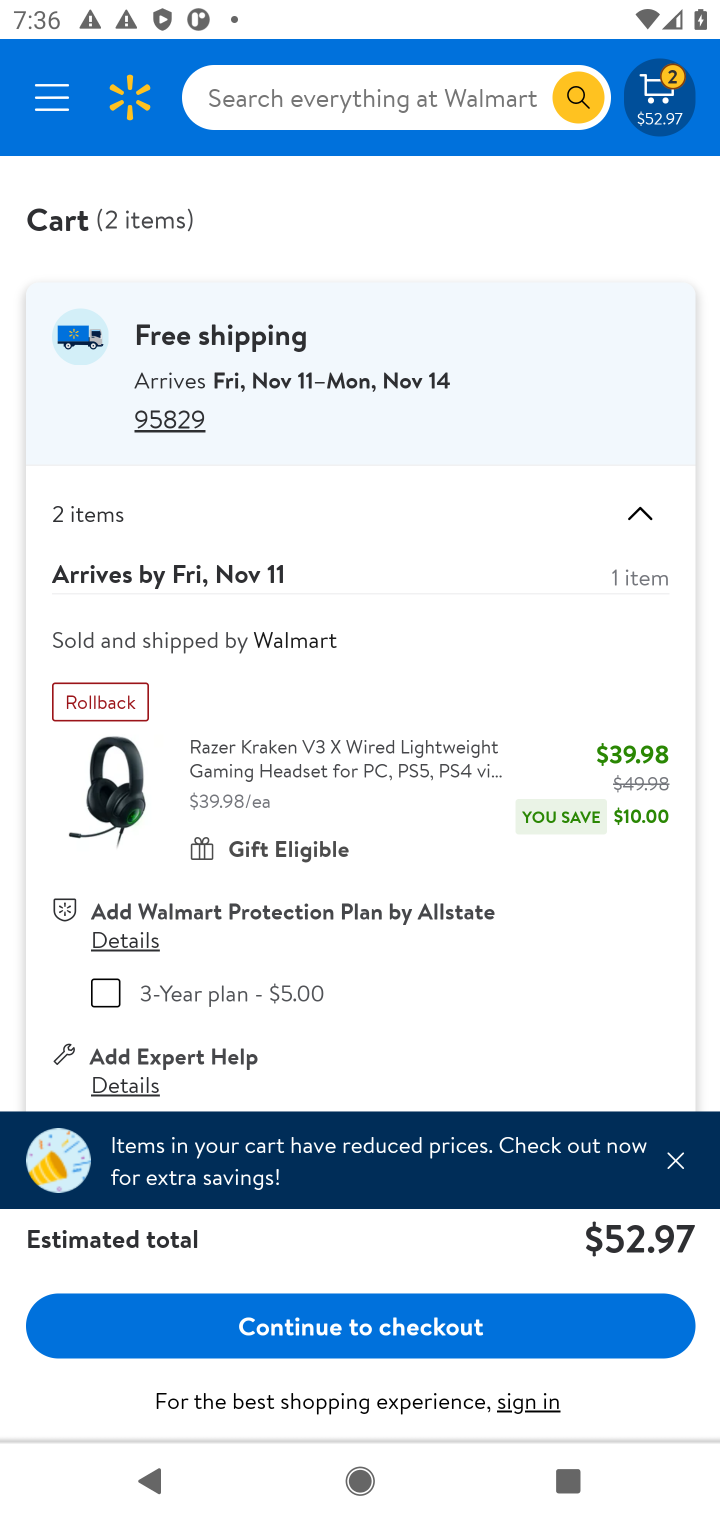
Step 30: drag from (390, 987) to (555, 500)
Your task to perform on an android device: Search for usb-b on walmart.com, select the first entry, add it to the cart, then select checkout. Image 31: 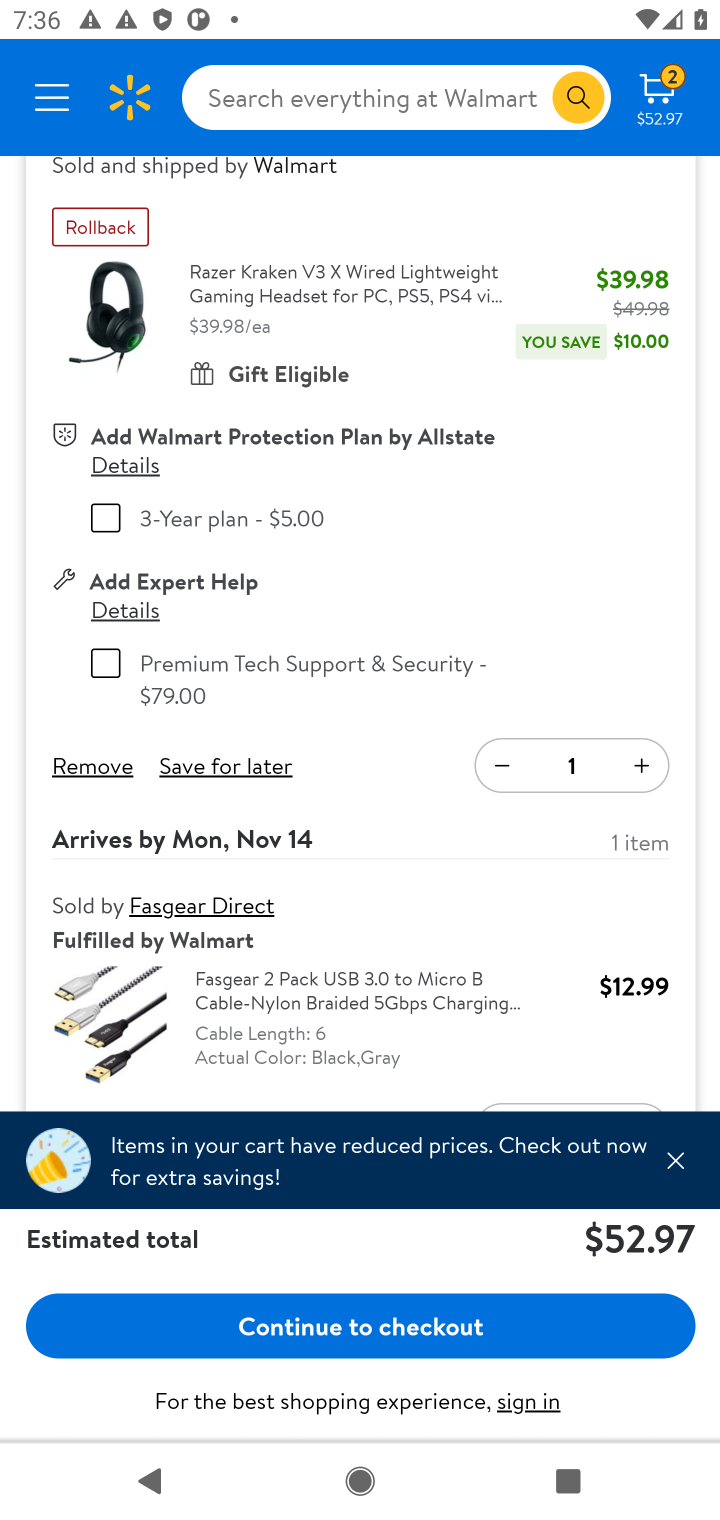
Step 31: click (108, 773)
Your task to perform on an android device: Search for usb-b on walmart.com, select the first entry, add it to the cart, then select checkout. Image 32: 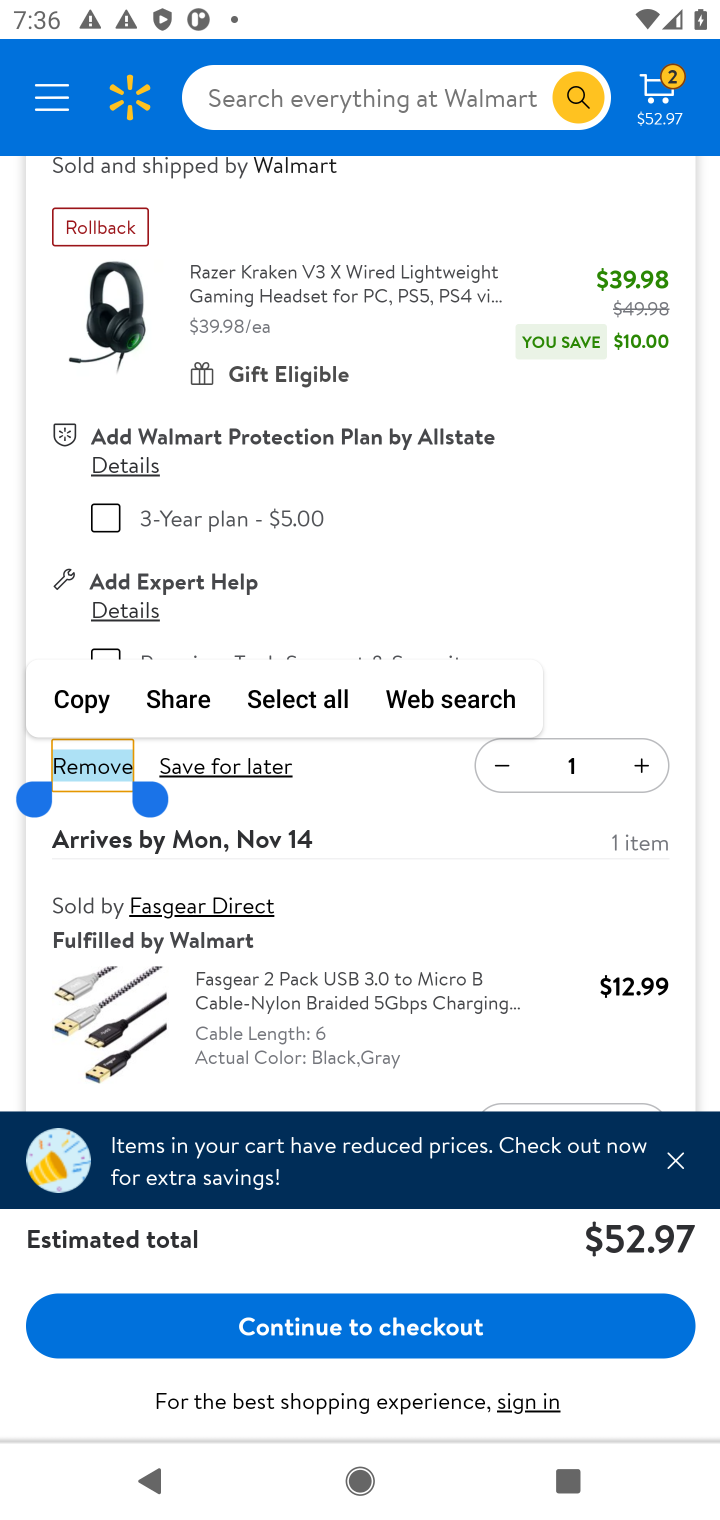
Step 32: click (106, 766)
Your task to perform on an android device: Search for usb-b on walmart.com, select the first entry, add it to the cart, then select checkout. Image 33: 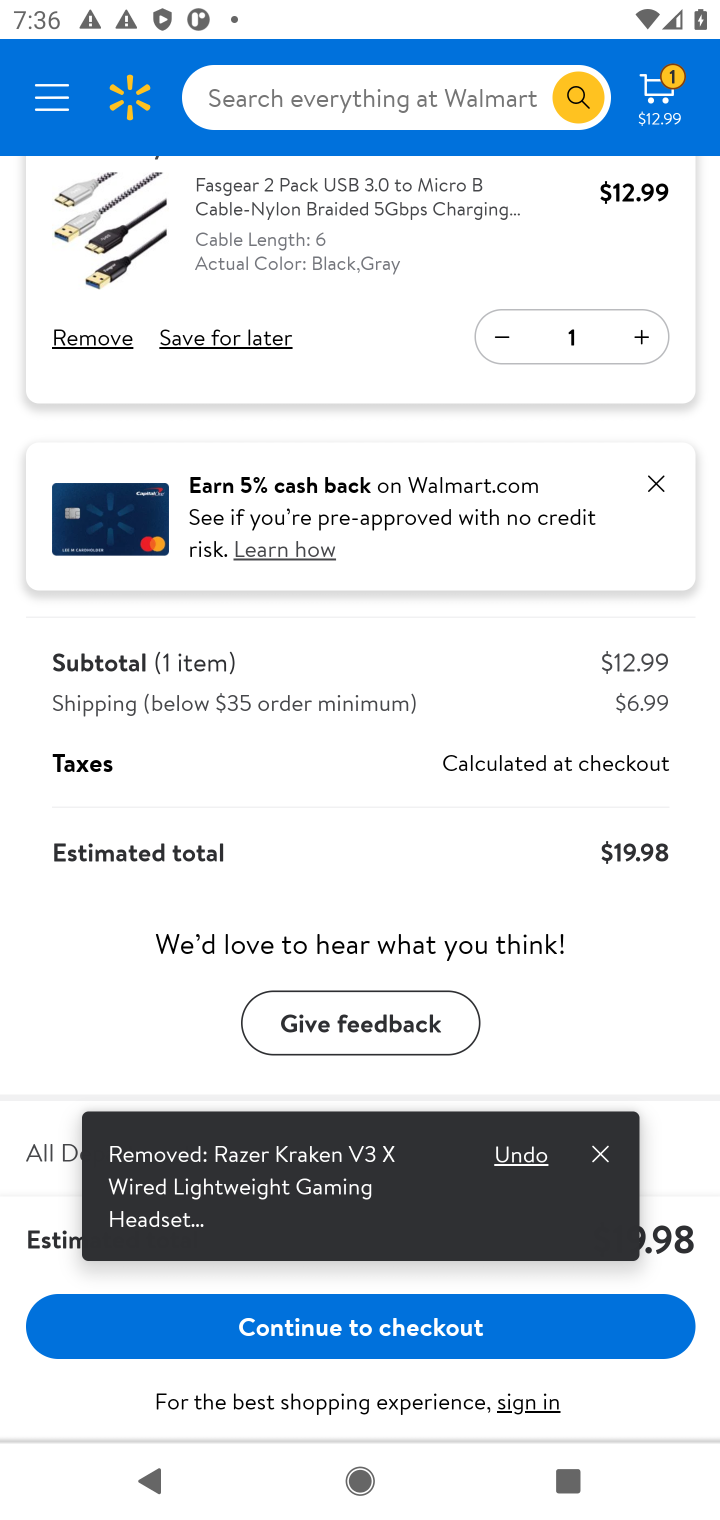
Step 33: click (397, 1325)
Your task to perform on an android device: Search for usb-b on walmart.com, select the first entry, add it to the cart, then select checkout. Image 34: 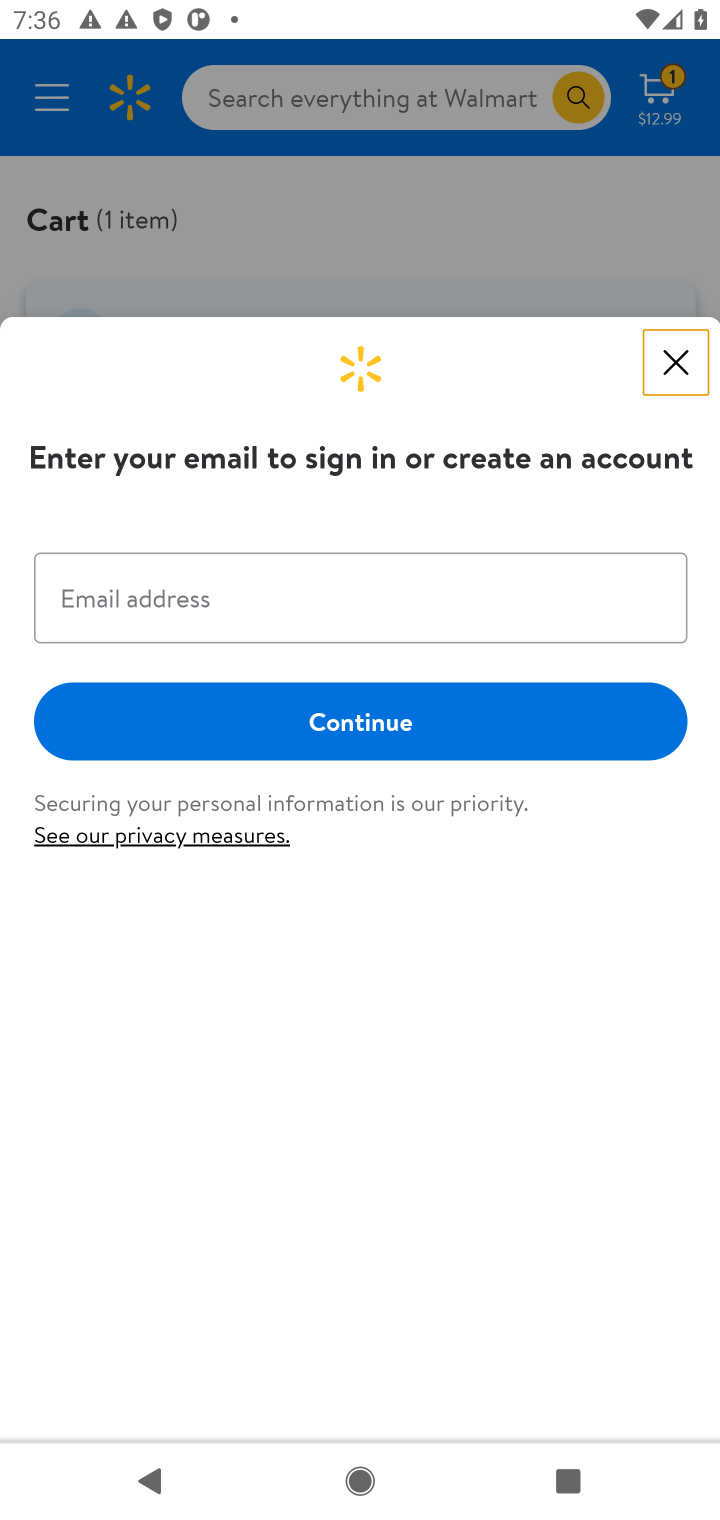
Step 34: task complete